Your task to perform on an android device: turn on the 24-hour format for clock Image 0: 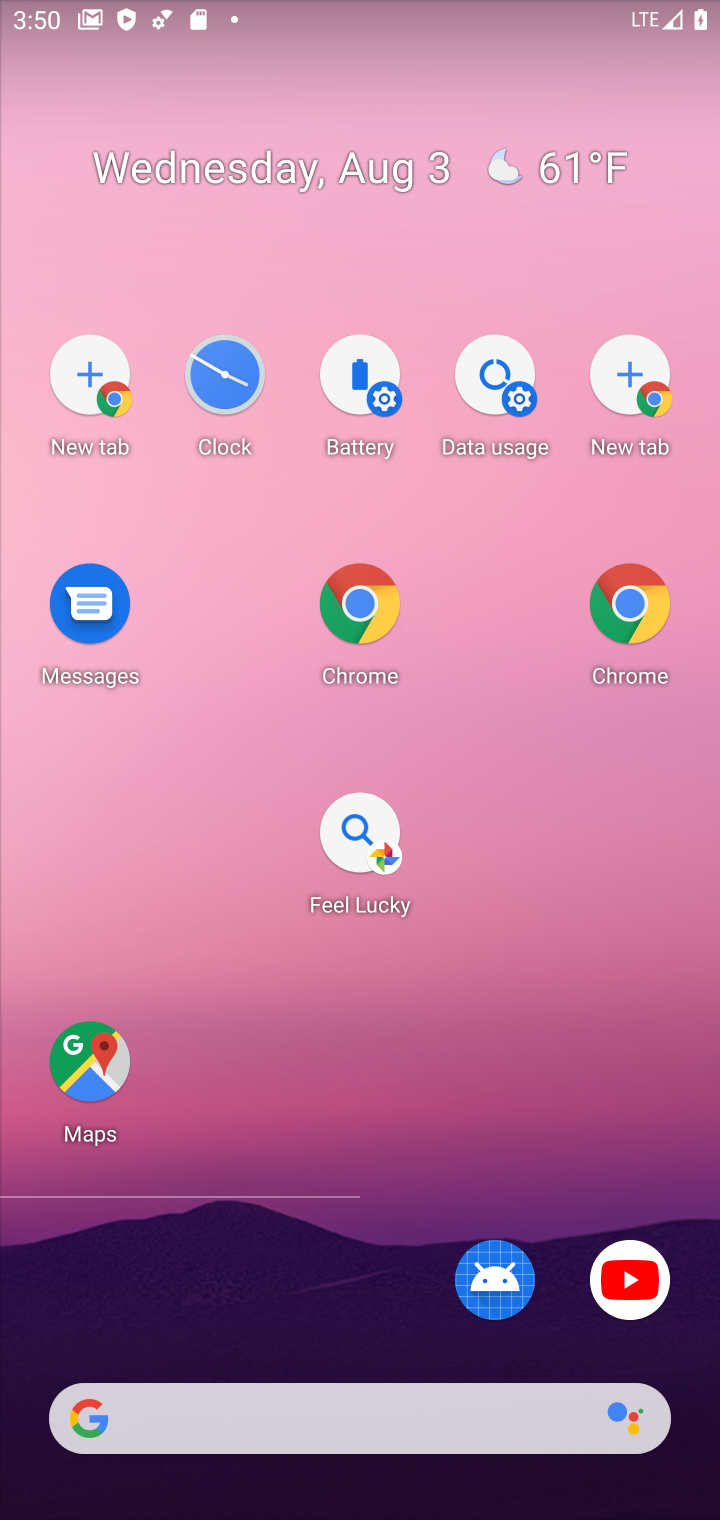
Step 0: click (213, 678)
Your task to perform on an android device: turn on the 24-hour format for clock Image 1: 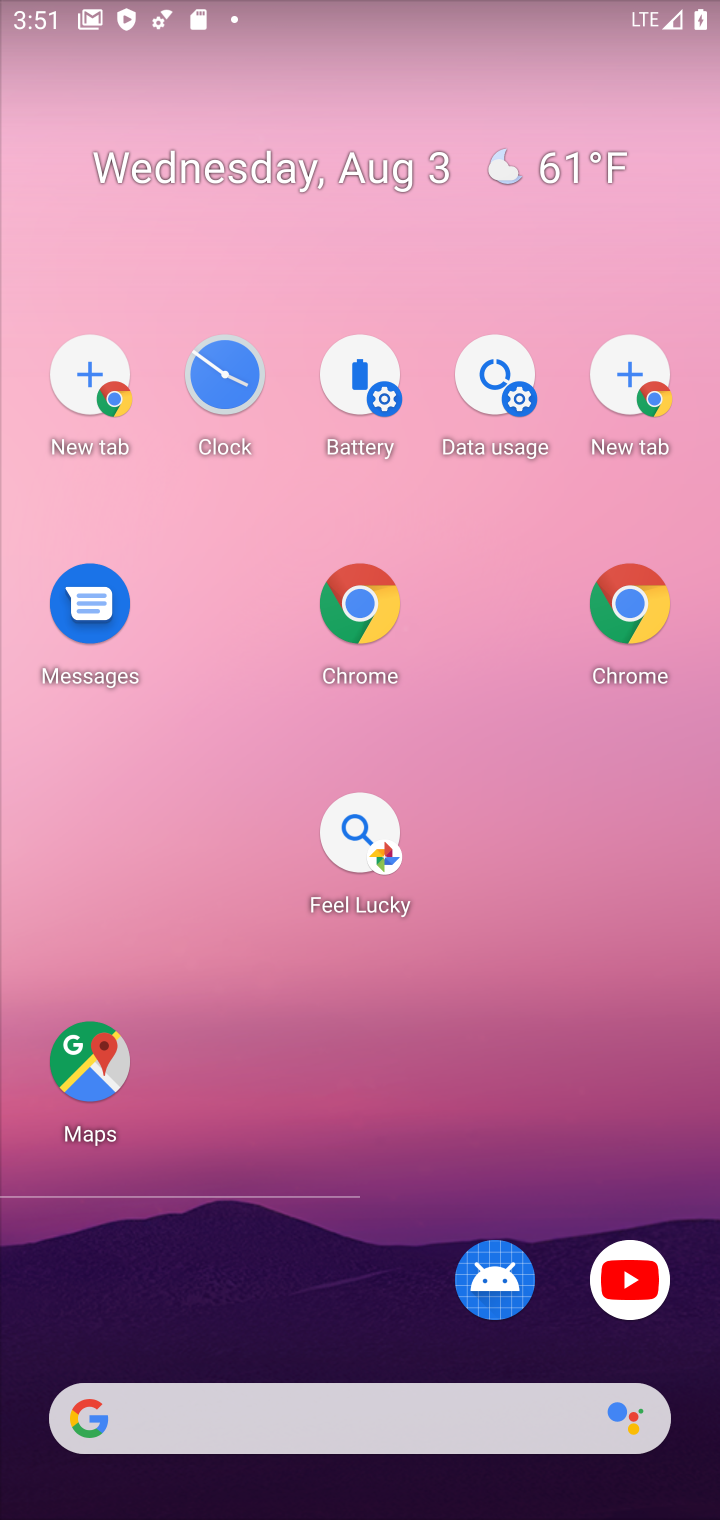
Step 1: drag from (431, 1308) to (336, 330)
Your task to perform on an android device: turn on the 24-hour format for clock Image 2: 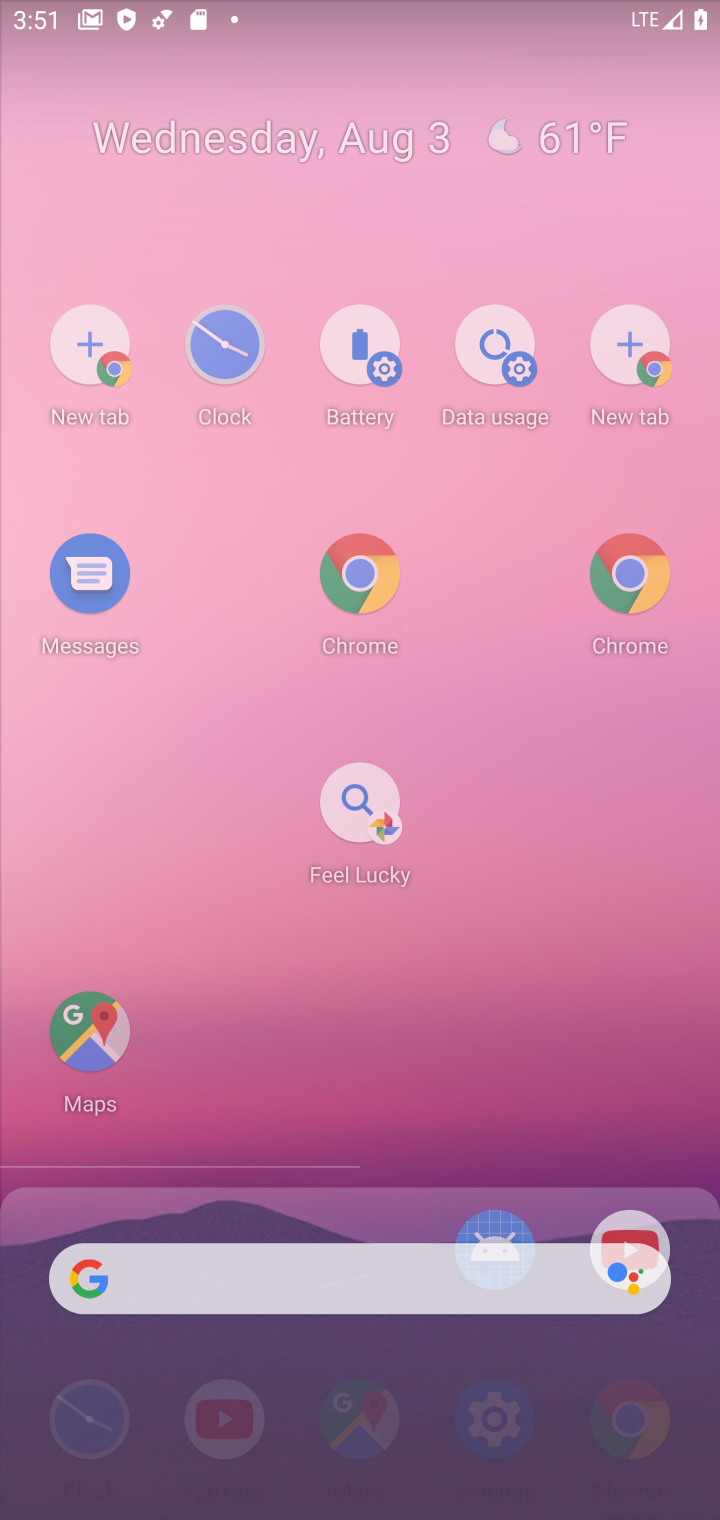
Step 2: click (266, 439)
Your task to perform on an android device: turn on the 24-hour format for clock Image 3: 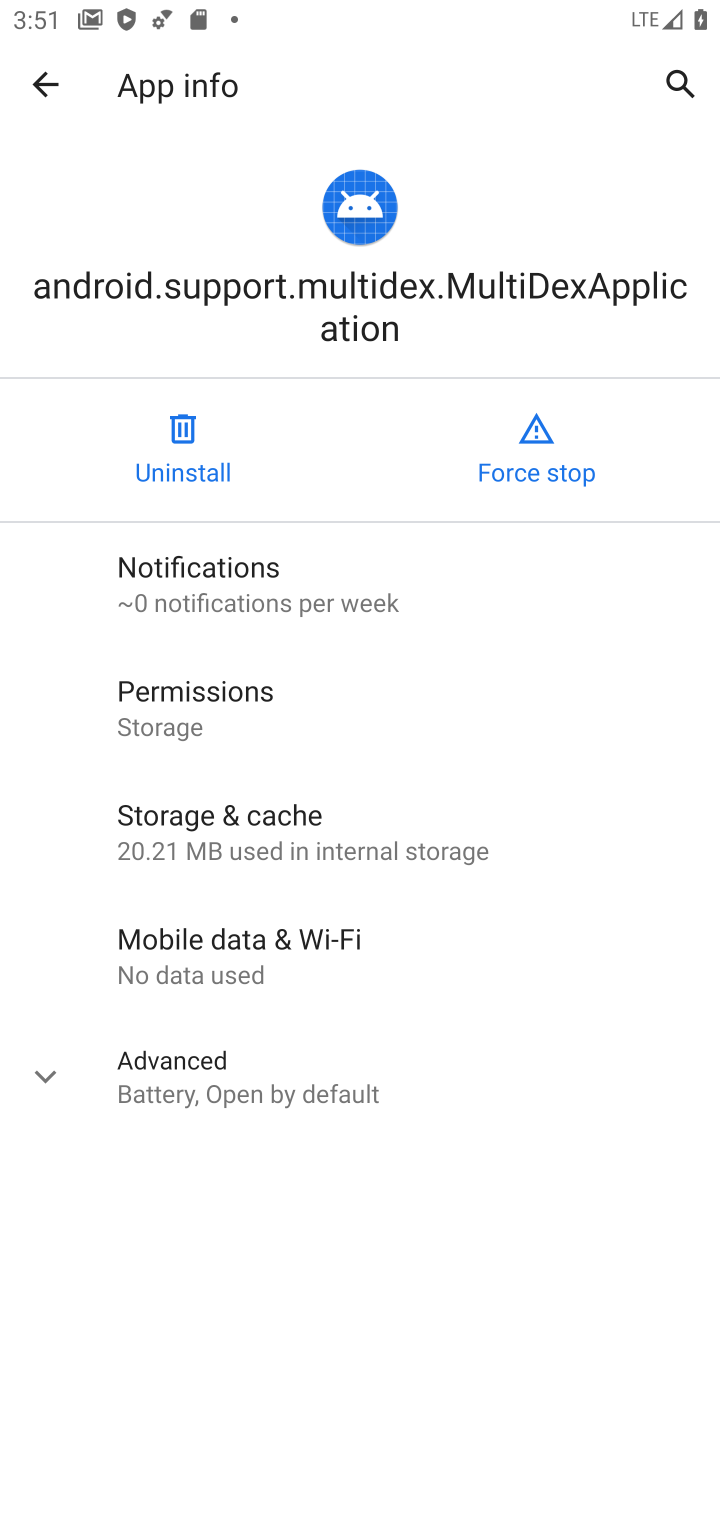
Step 3: click (29, 94)
Your task to perform on an android device: turn on the 24-hour format for clock Image 4: 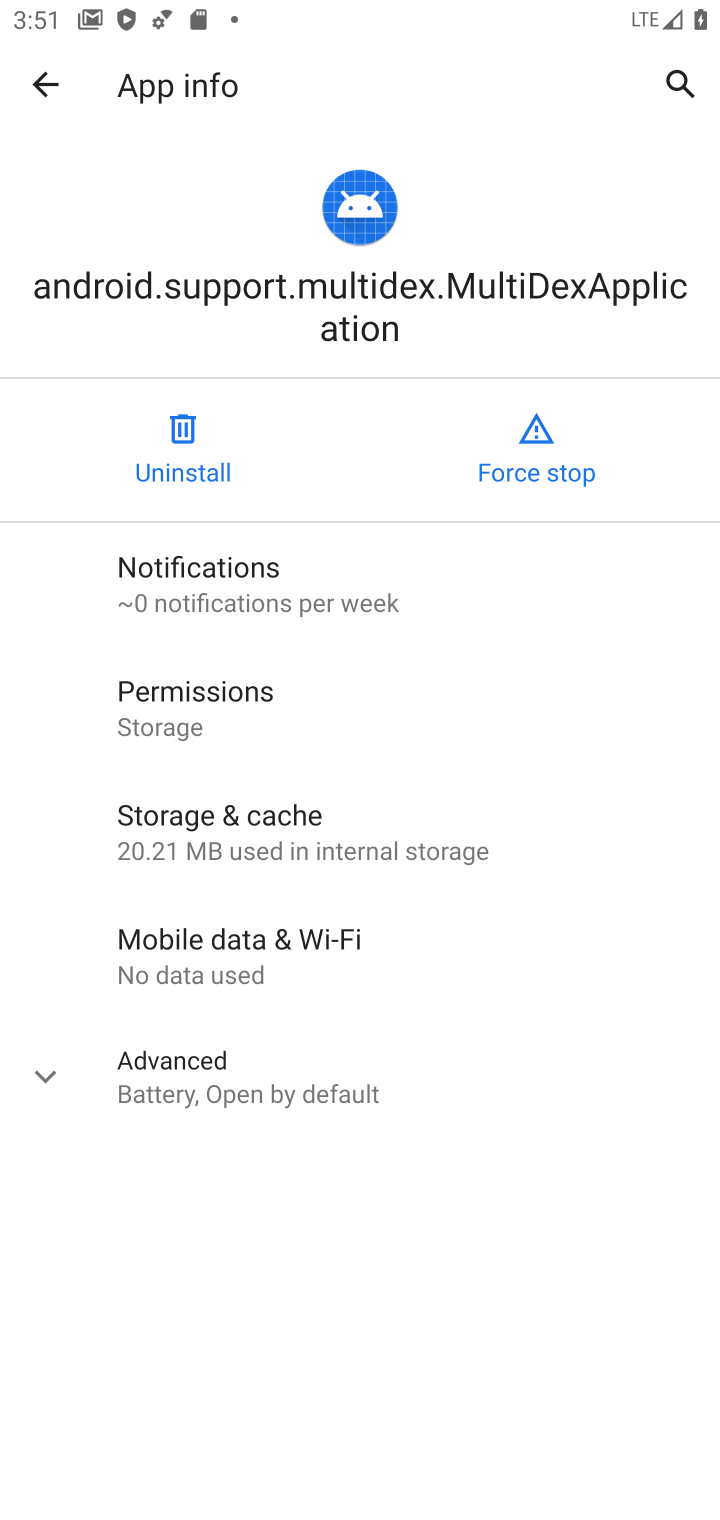
Step 4: click (32, 94)
Your task to perform on an android device: turn on the 24-hour format for clock Image 5: 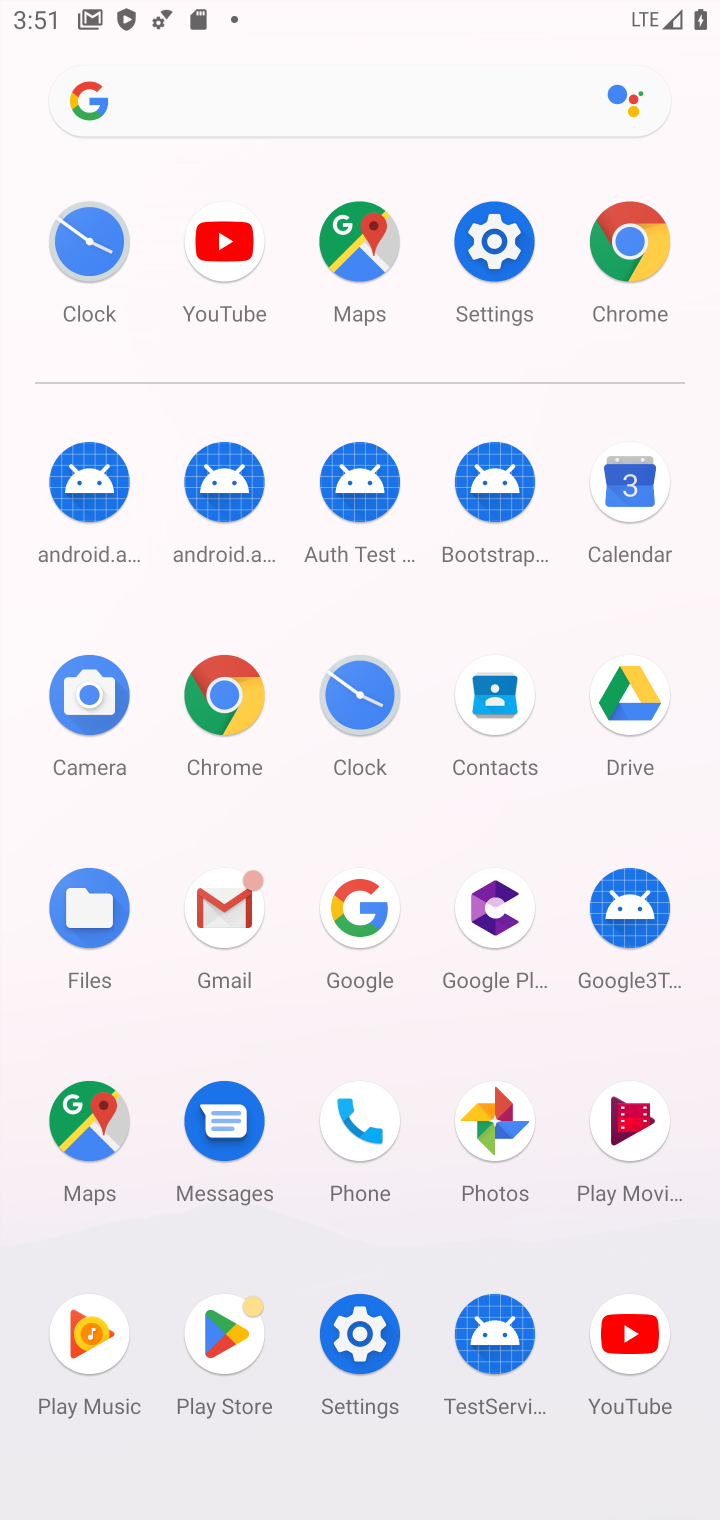
Step 5: click (358, 689)
Your task to perform on an android device: turn on the 24-hour format for clock Image 6: 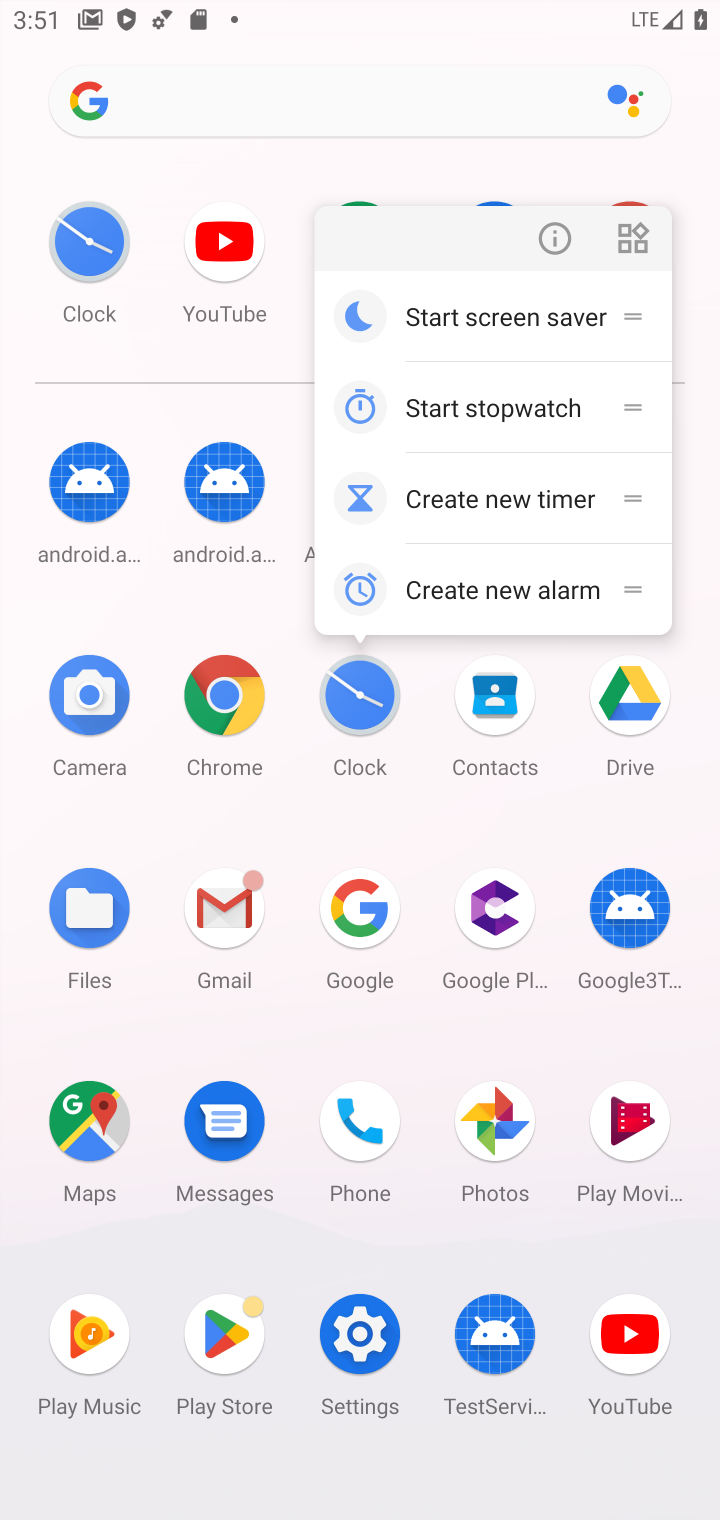
Step 6: click (88, 243)
Your task to perform on an android device: turn on the 24-hour format for clock Image 7: 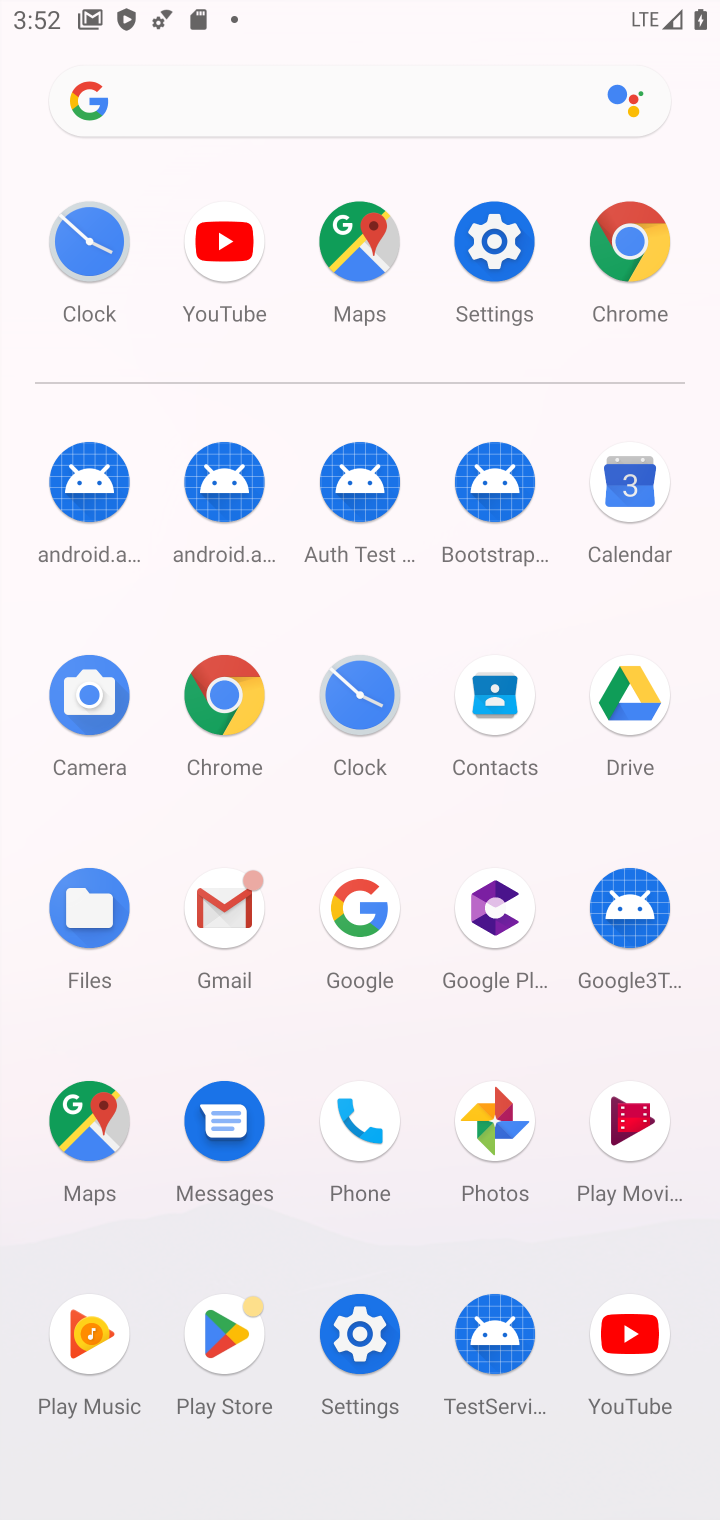
Step 7: drag from (98, 243) to (327, 703)
Your task to perform on an android device: turn on the 24-hour format for clock Image 8: 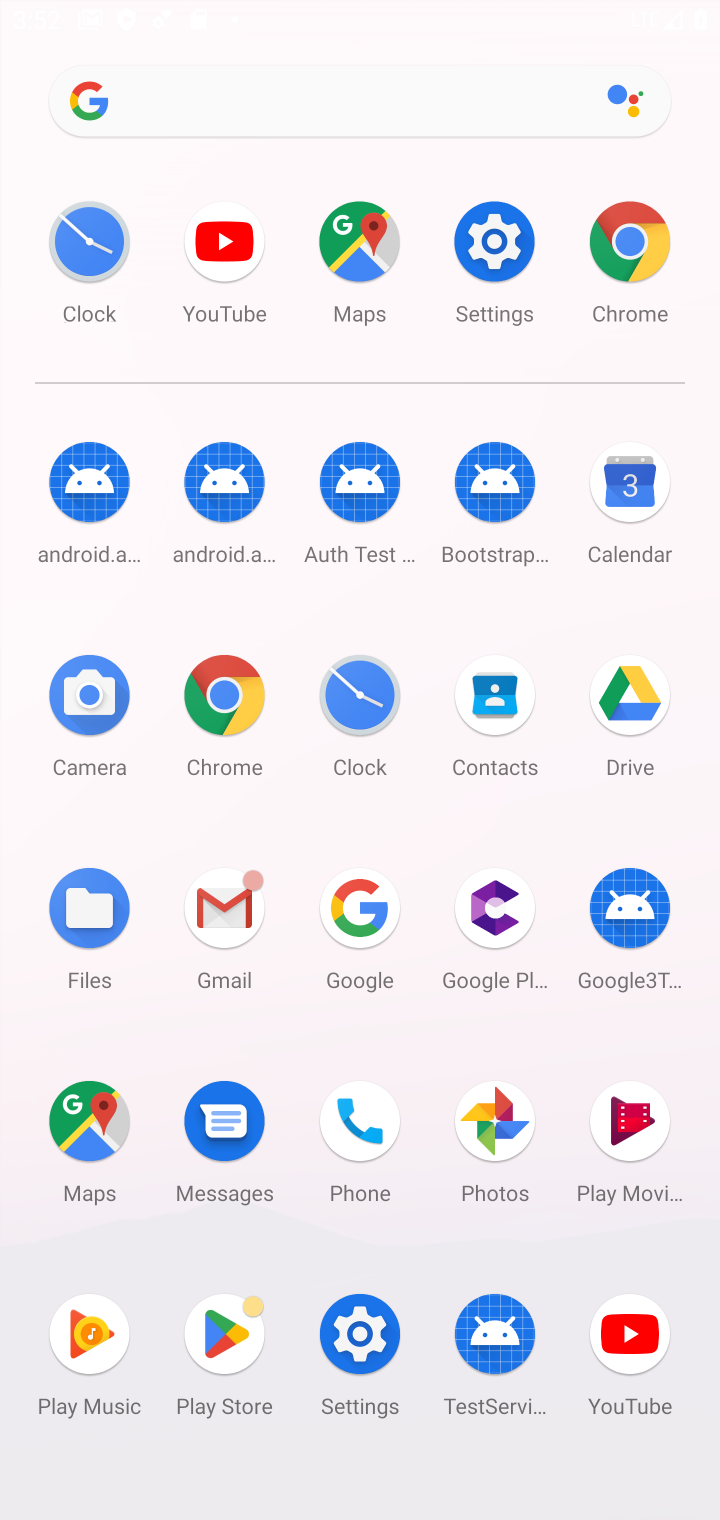
Step 8: click (331, 703)
Your task to perform on an android device: turn on the 24-hour format for clock Image 9: 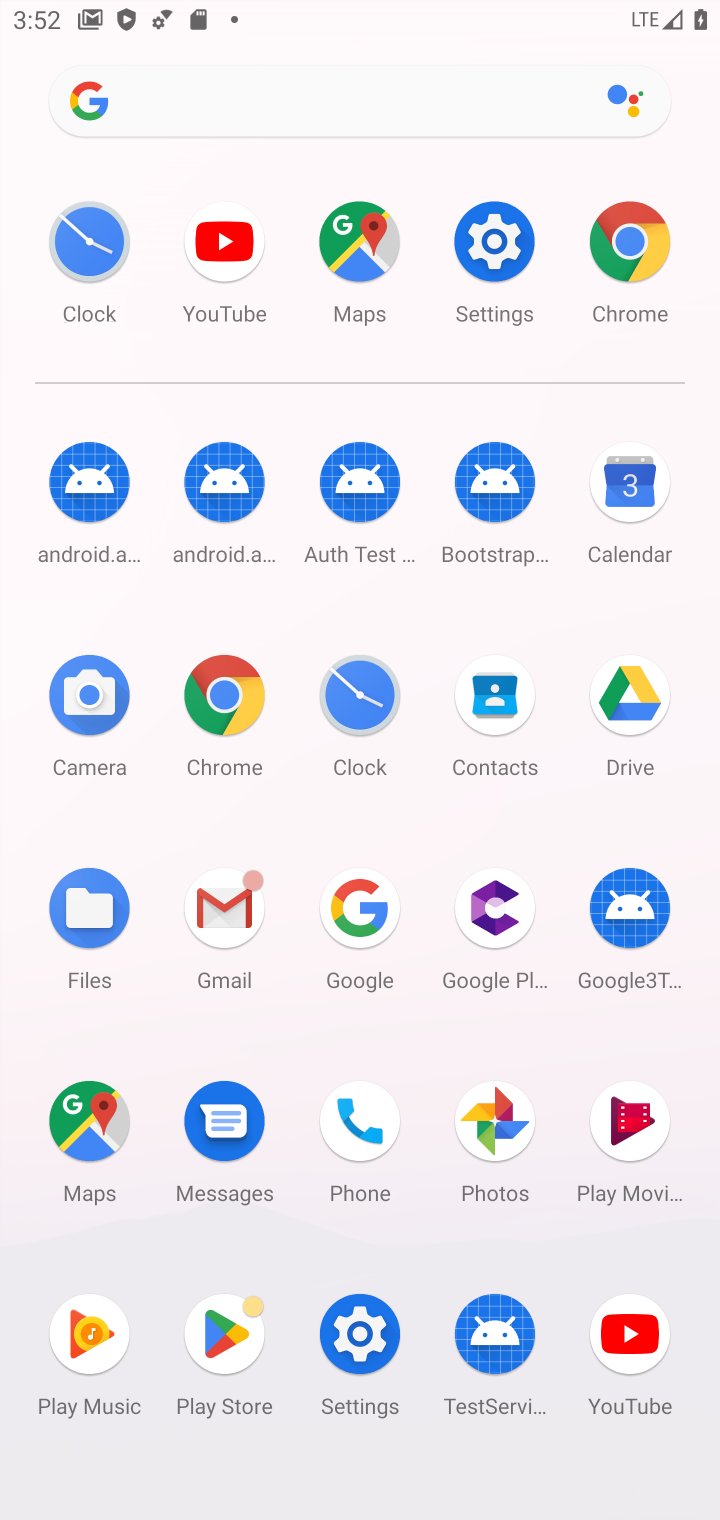
Step 9: drag from (316, 715) to (371, 652)
Your task to perform on an android device: turn on the 24-hour format for clock Image 10: 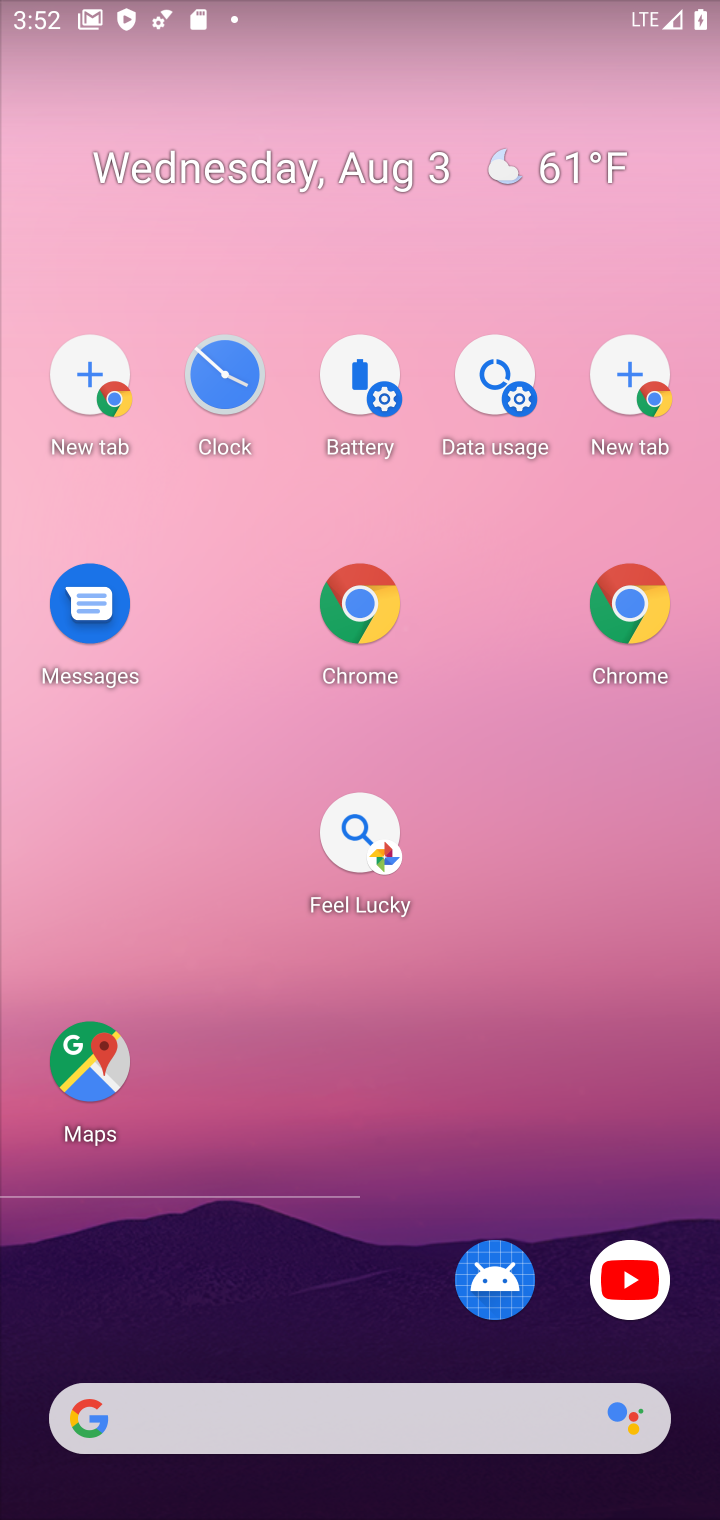
Step 10: click (359, 666)
Your task to perform on an android device: turn on the 24-hour format for clock Image 11: 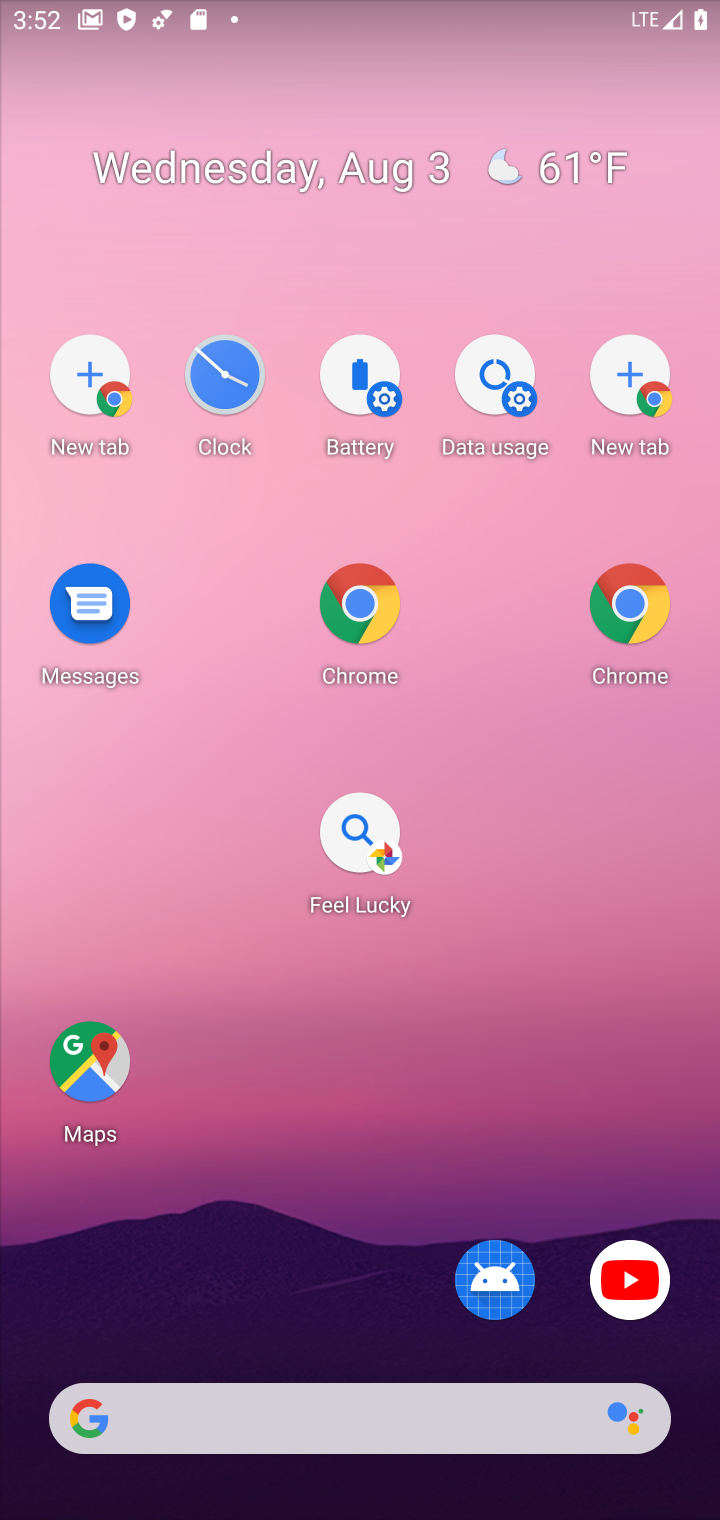
Step 11: drag from (355, 512) to (479, 244)
Your task to perform on an android device: turn on the 24-hour format for clock Image 12: 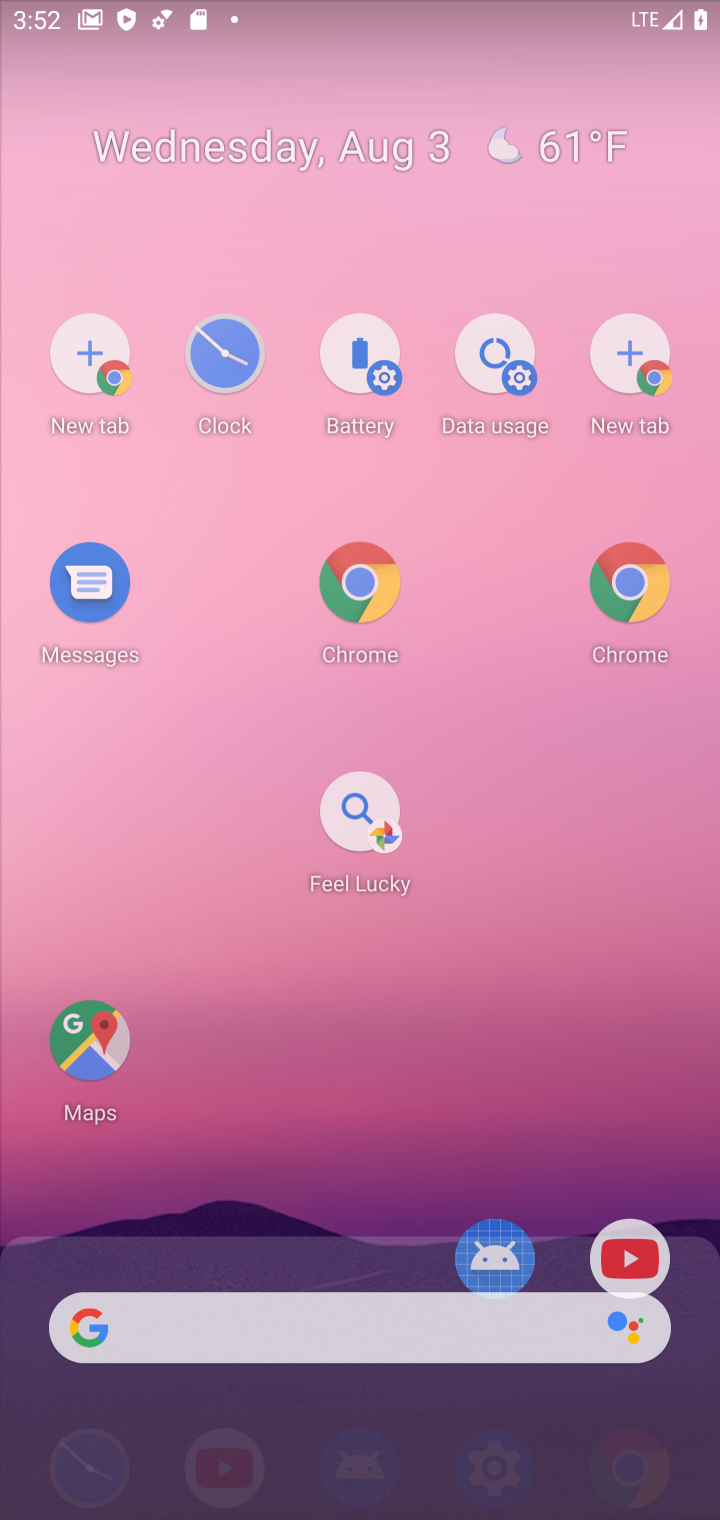
Step 12: click (320, 278)
Your task to perform on an android device: turn on the 24-hour format for clock Image 13: 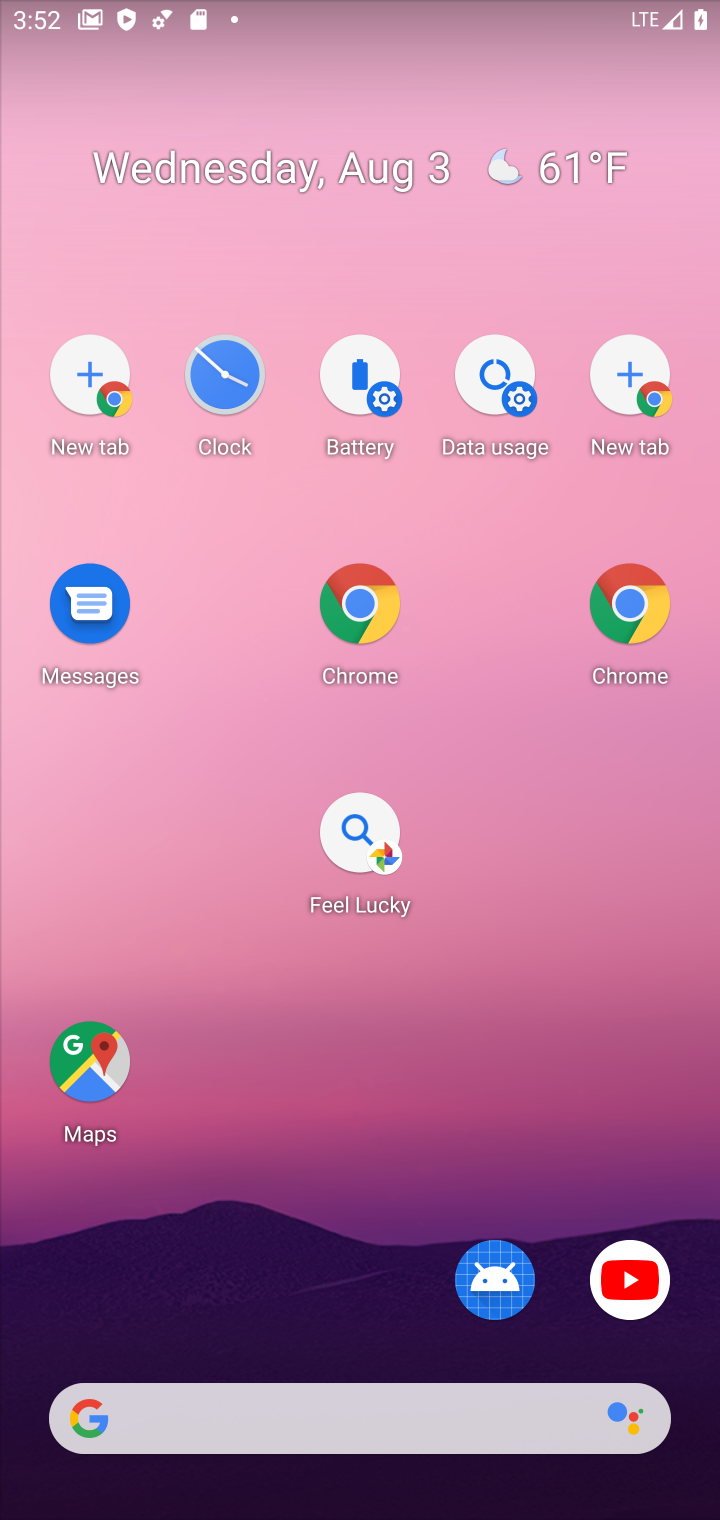
Step 13: click (254, 561)
Your task to perform on an android device: turn on the 24-hour format for clock Image 14: 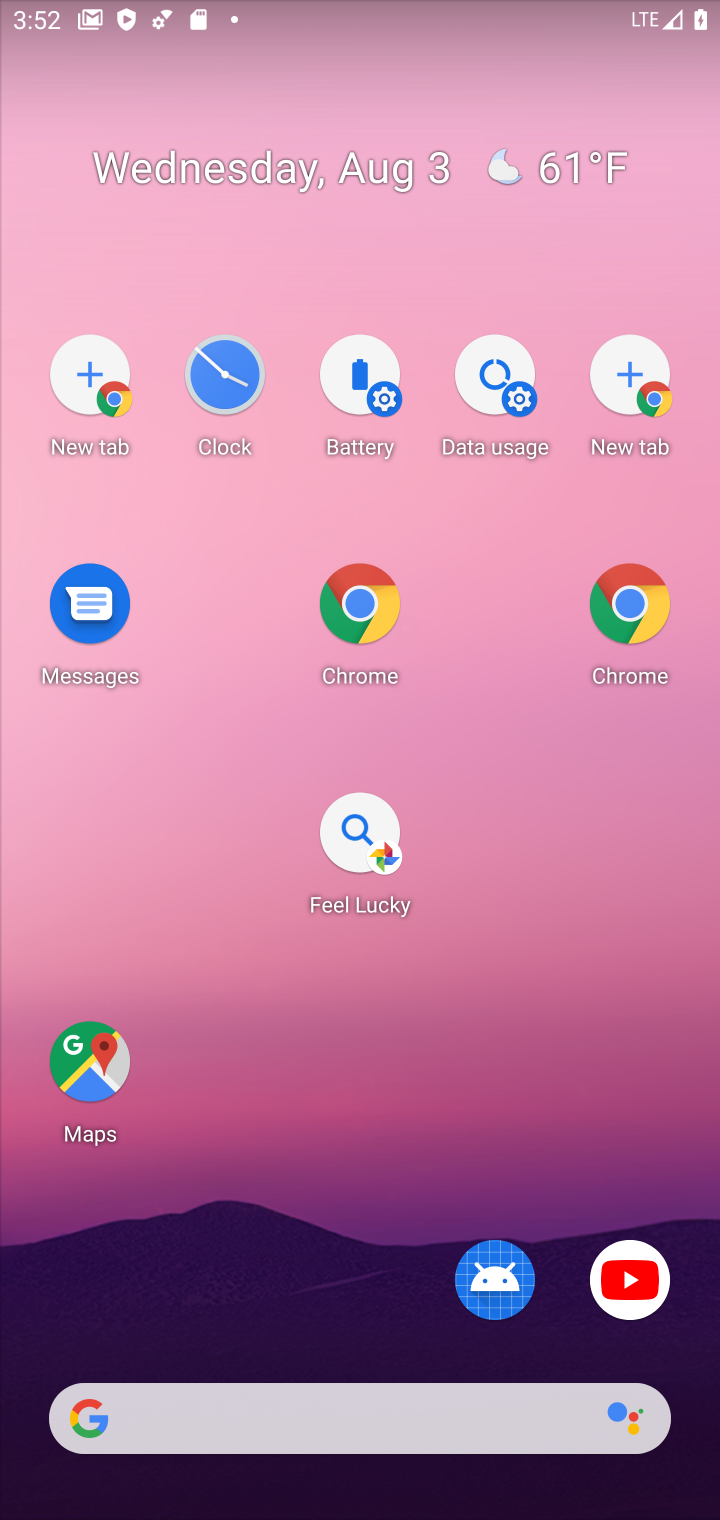
Step 14: drag from (329, 478) to (416, 534)
Your task to perform on an android device: turn on the 24-hour format for clock Image 15: 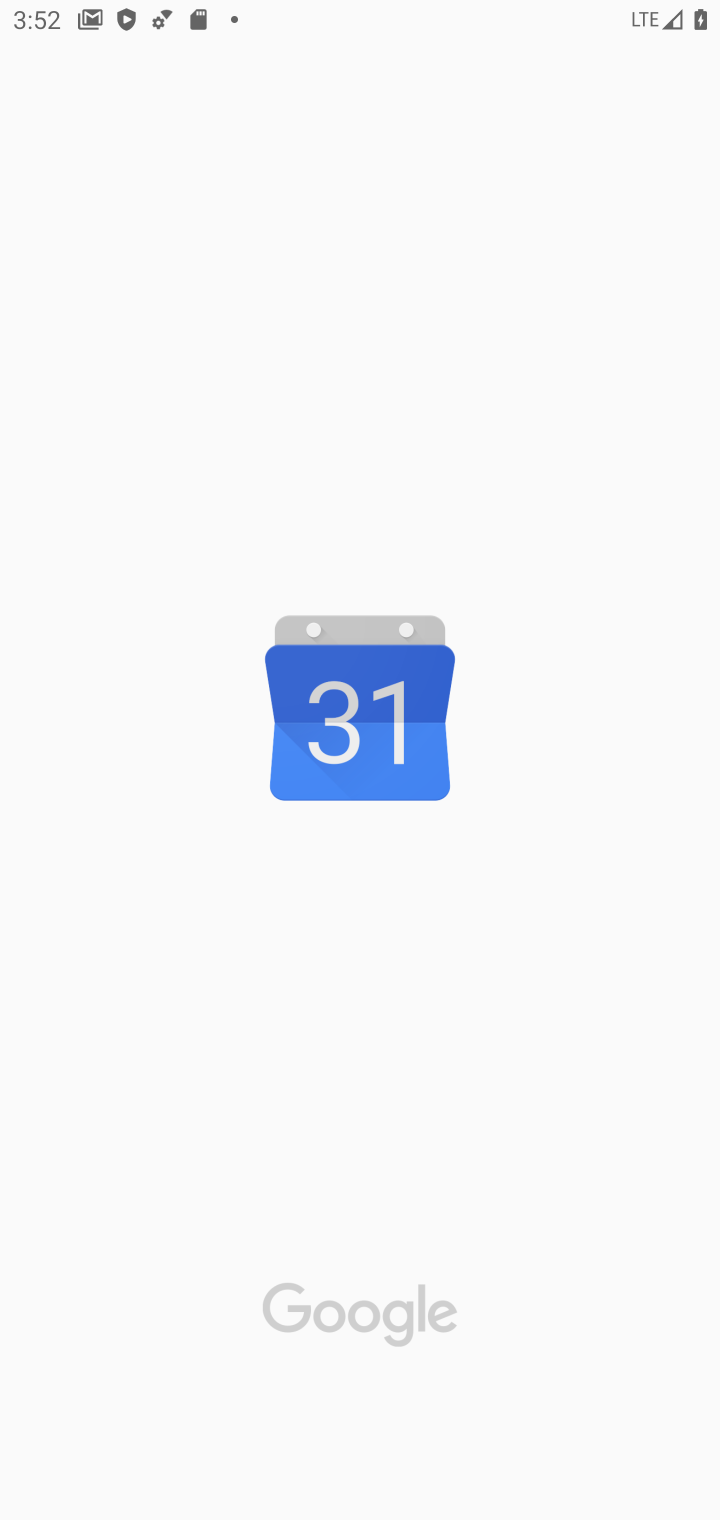
Step 15: drag from (357, 1171) to (374, 64)
Your task to perform on an android device: turn on the 24-hour format for clock Image 16: 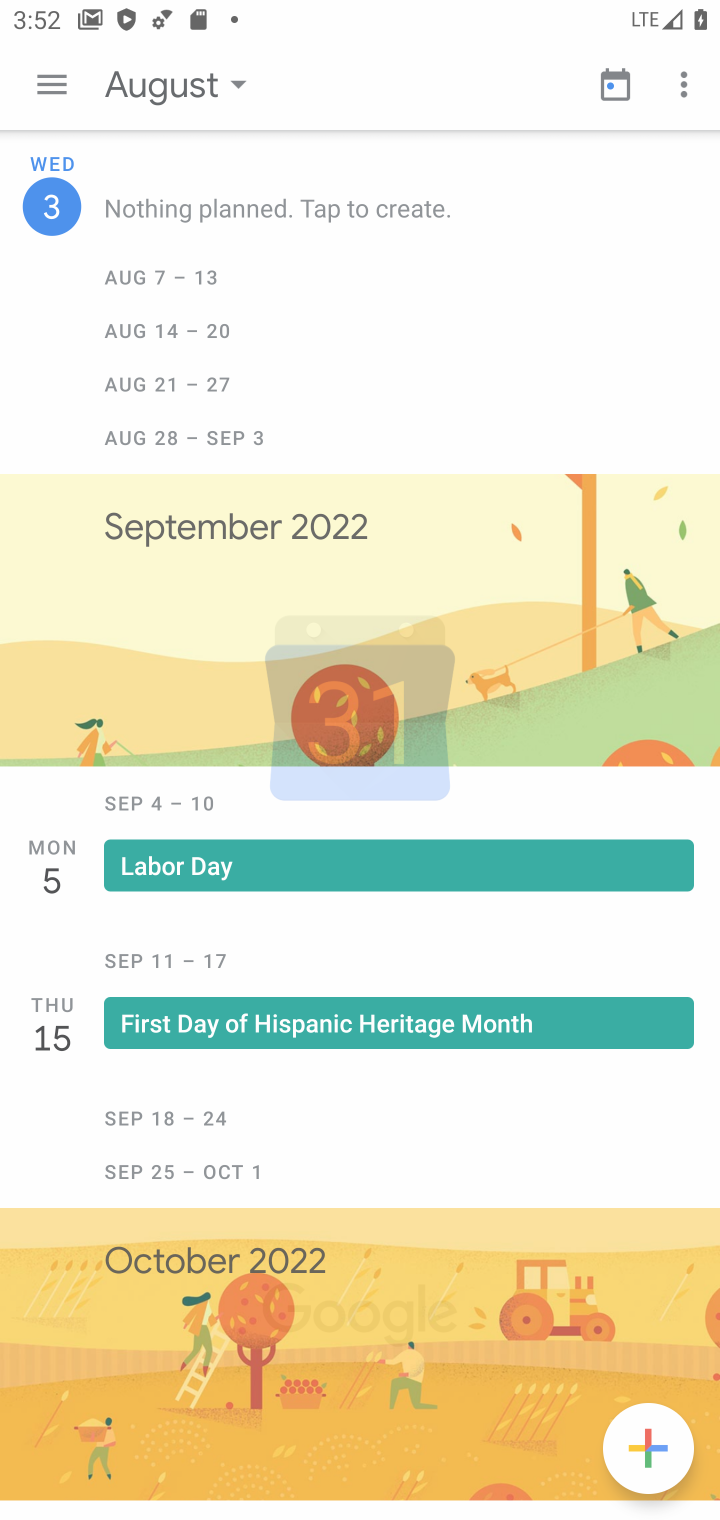
Step 16: click (458, 340)
Your task to perform on an android device: turn on the 24-hour format for clock Image 17: 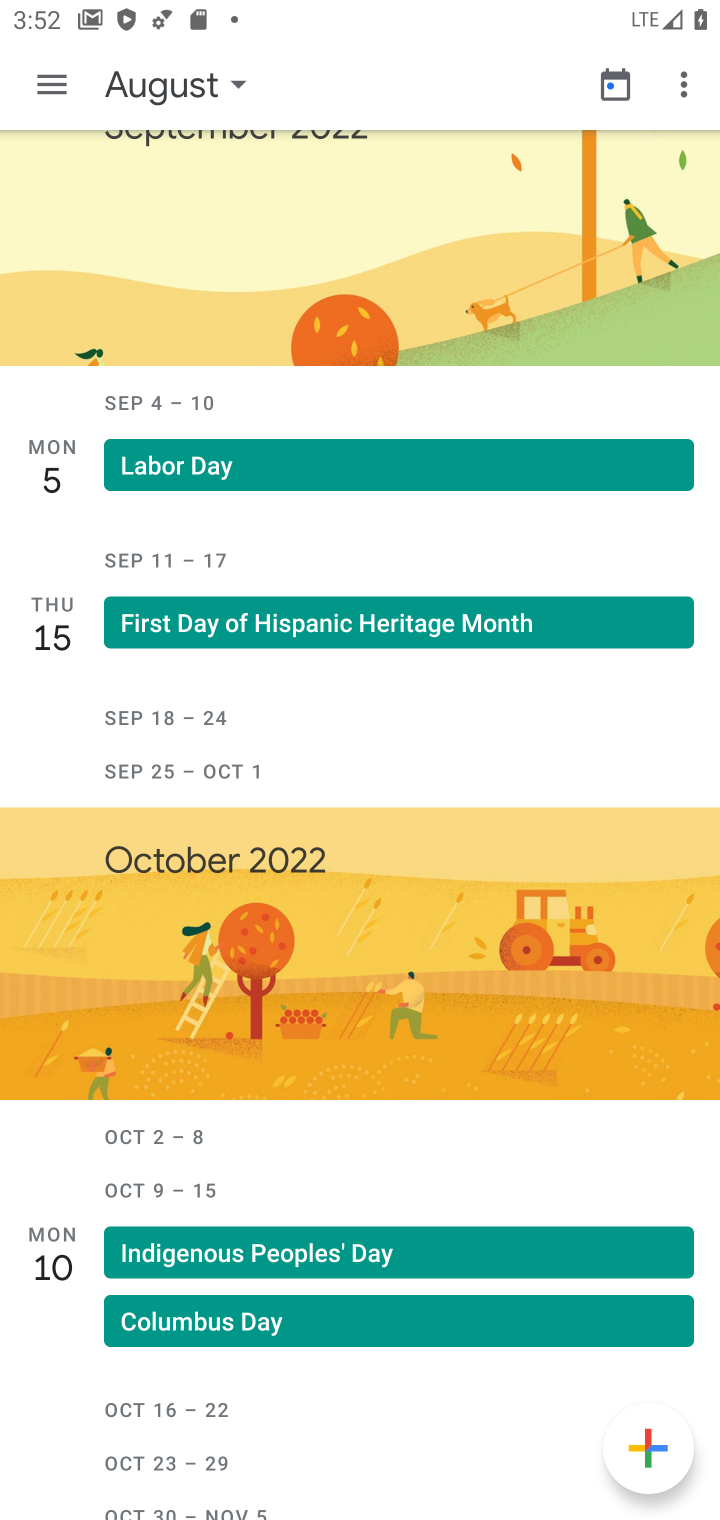
Step 17: press back button
Your task to perform on an android device: turn on the 24-hour format for clock Image 18: 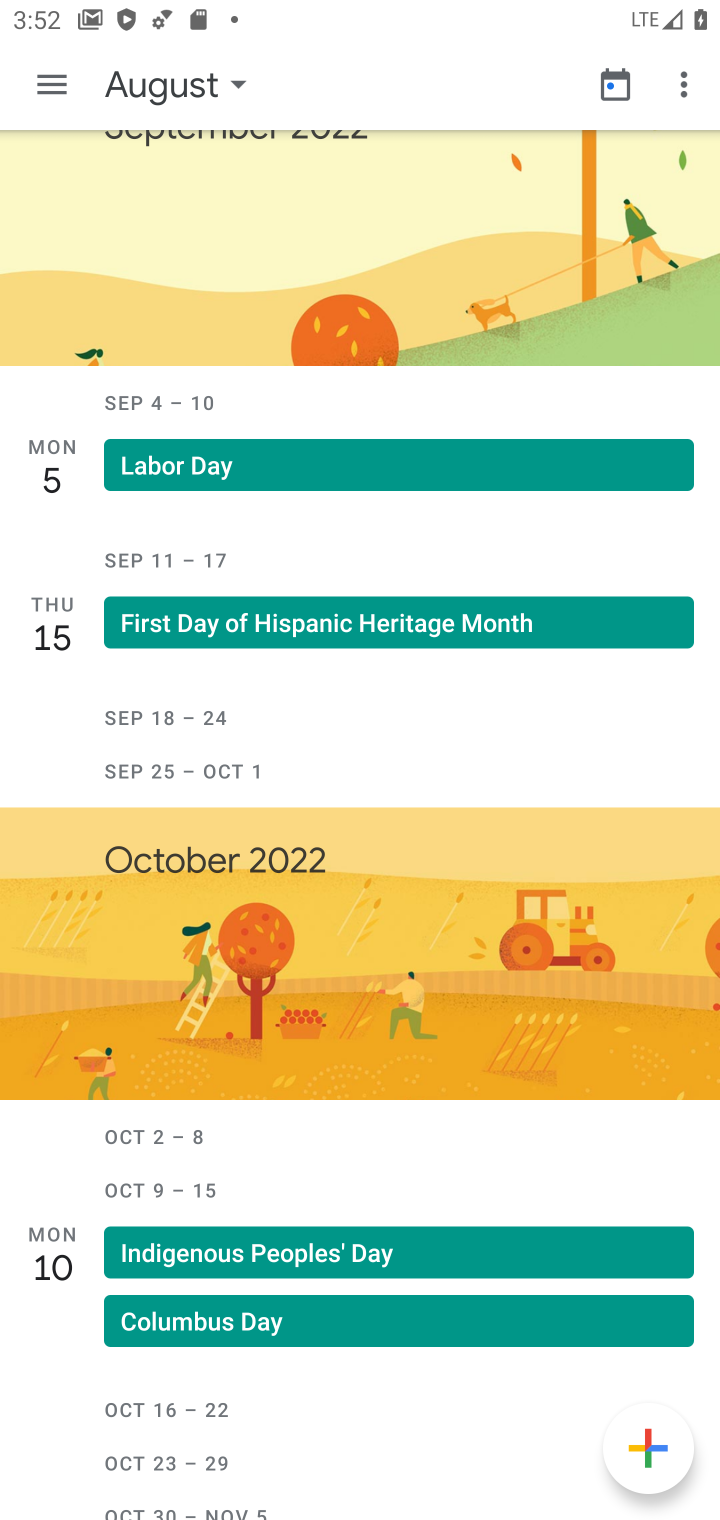
Step 18: press back button
Your task to perform on an android device: turn on the 24-hour format for clock Image 19: 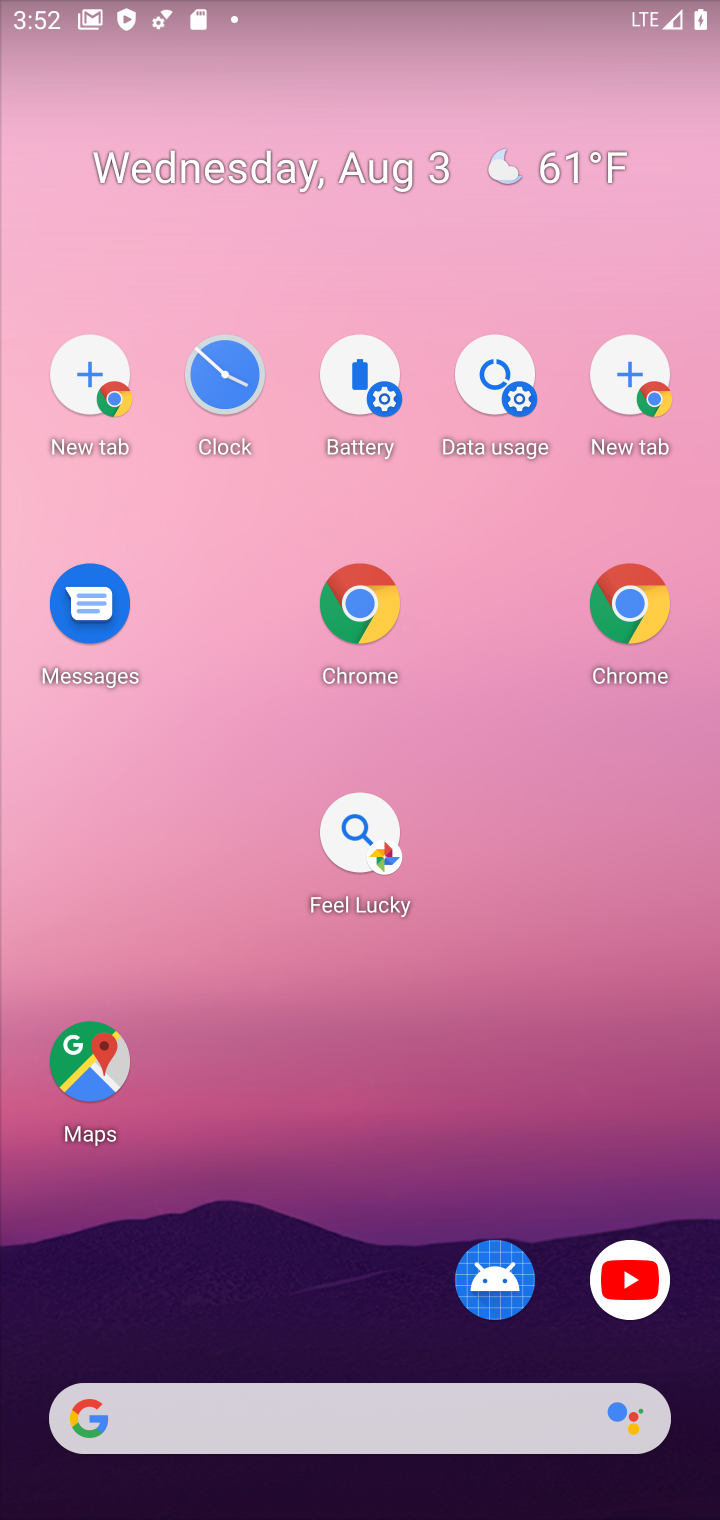
Step 19: drag from (439, 1283) to (419, 274)
Your task to perform on an android device: turn on the 24-hour format for clock Image 20: 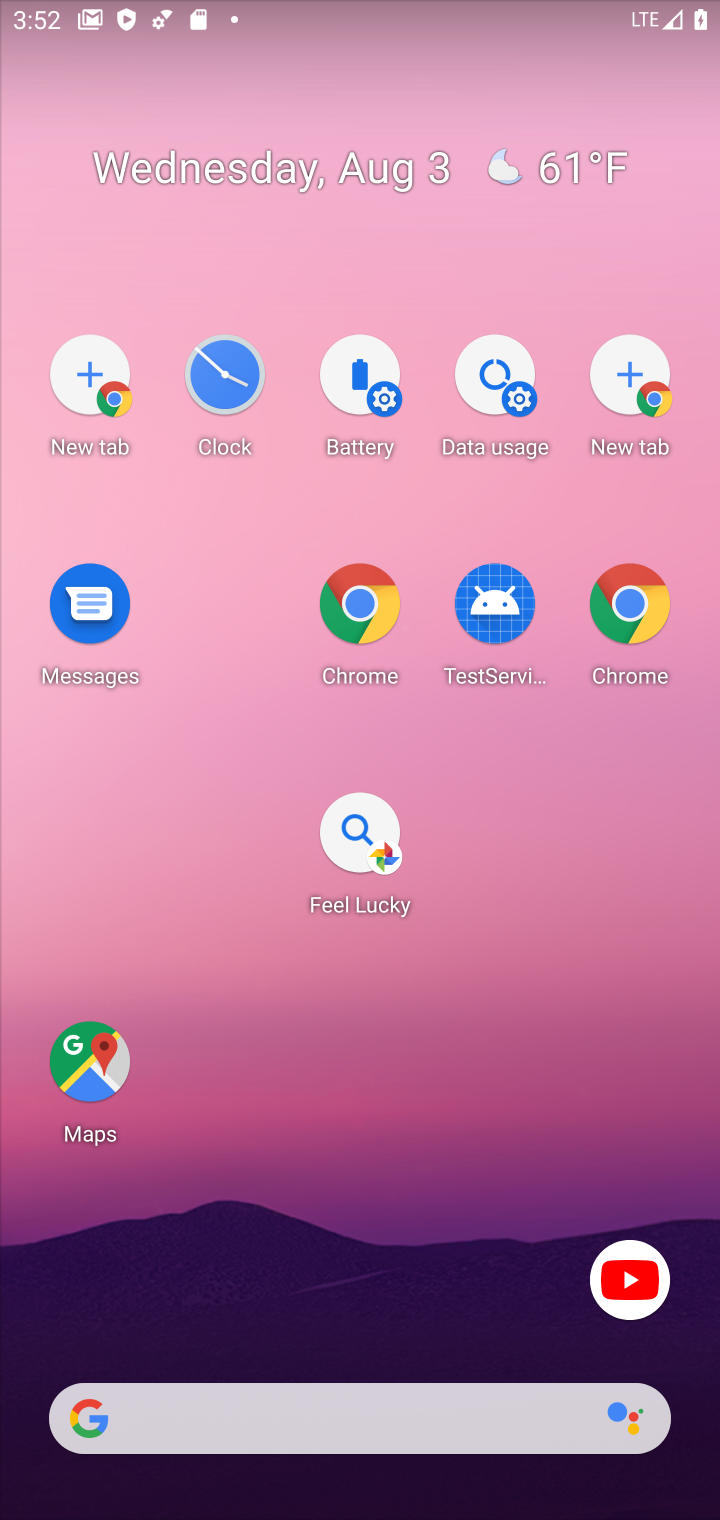
Step 20: drag from (346, 701) to (425, 427)
Your task to perform on an android device: turn on the 24-hour format for clock Image 21: 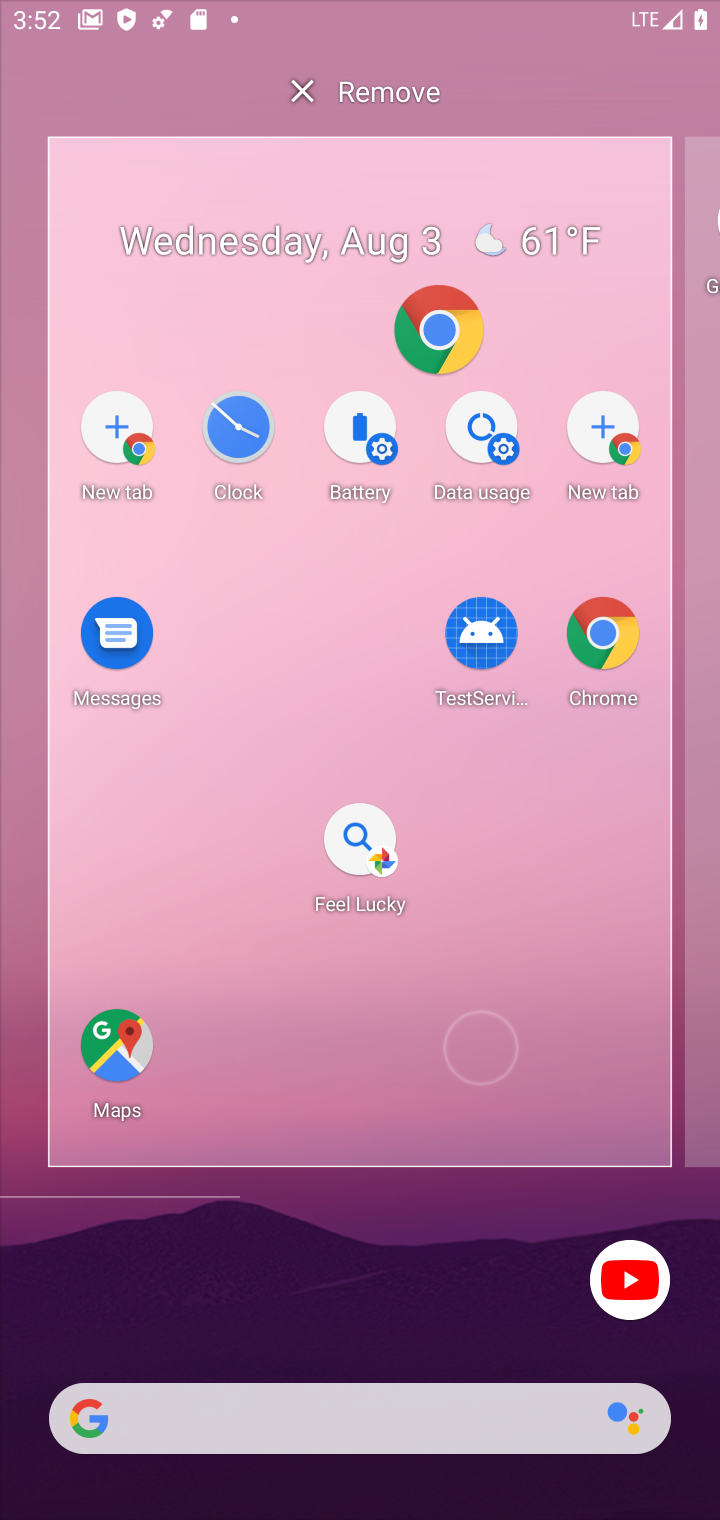
Step 21: drag from (73, 574) to (490, 458)
Your task to perform on an android device: turn on the 24-hour format for clock Image 22: 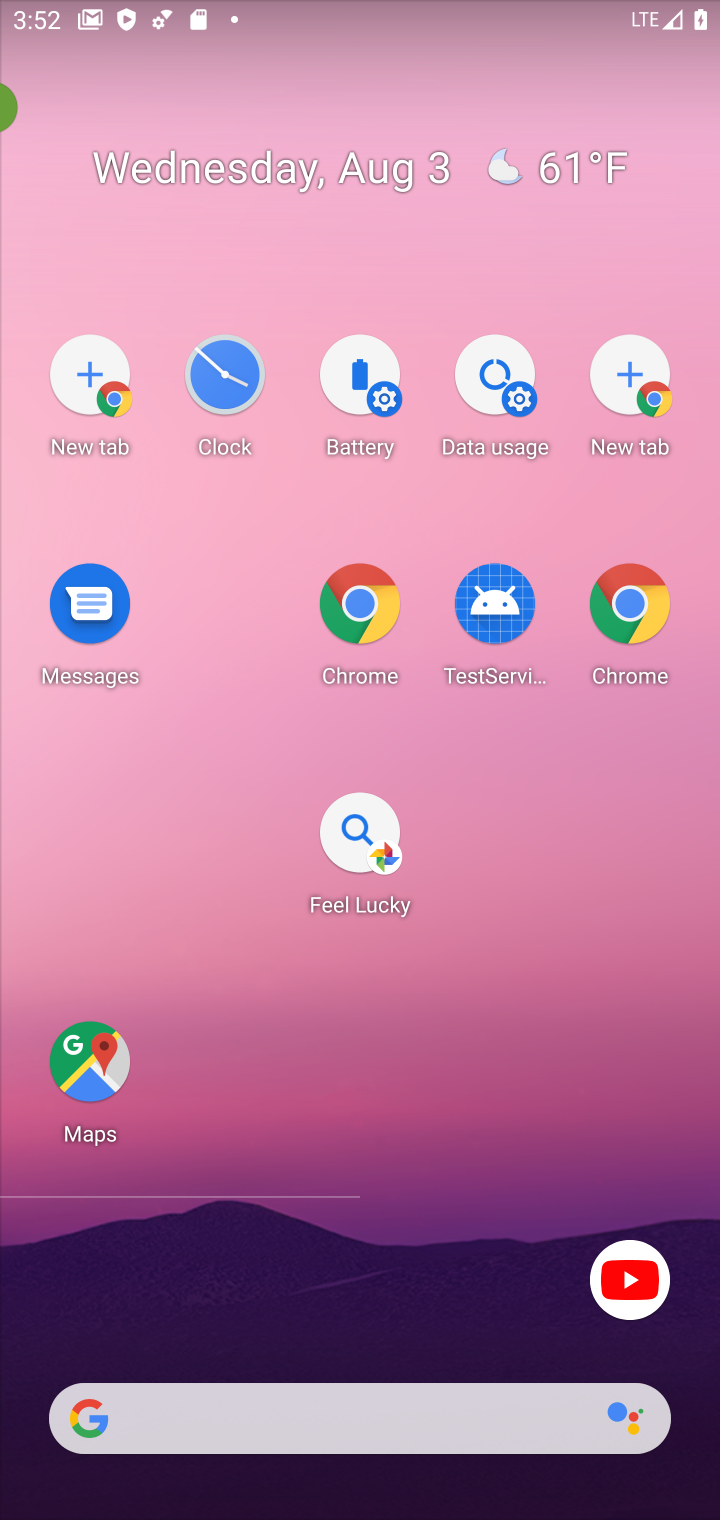
Step 22: click (261, 426)
Your task to perform on an android device: turn on the 24-hour format for clock Image 23: 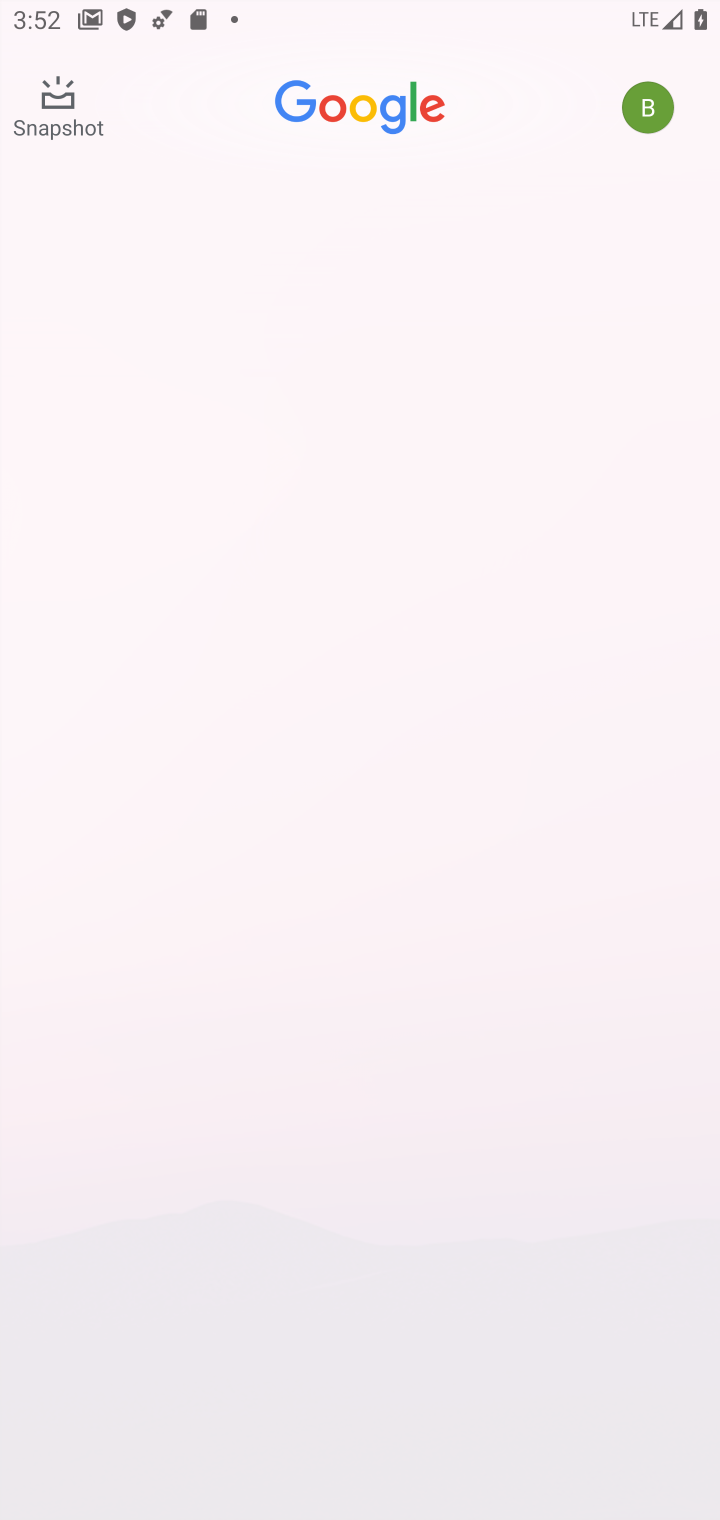
Step 23: click (246, 437)
Your task to perform on an android device: turn on the 24-hour format for clock Image 24: 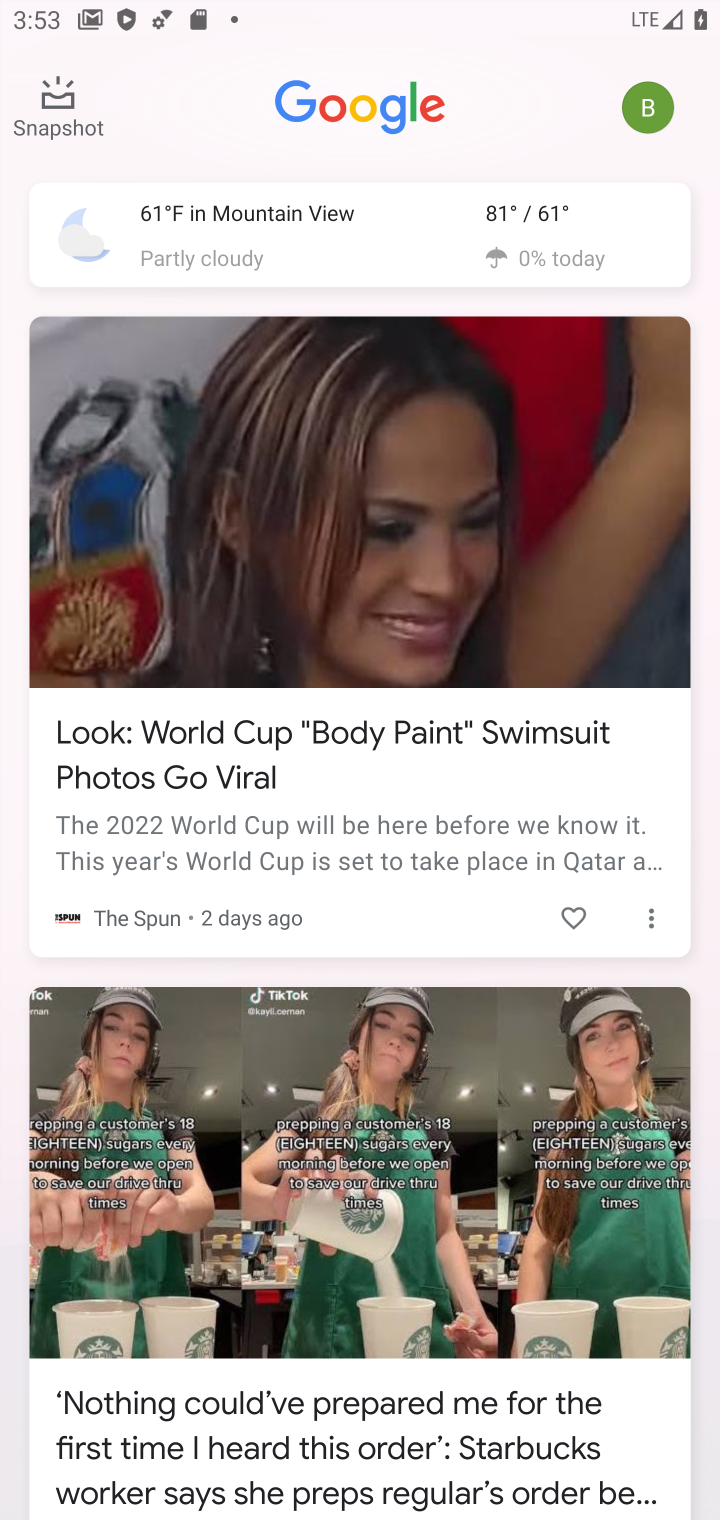
Step 24: press back button
Your task to perform on an android device: turn on the 24-hour format for clock Image 25: 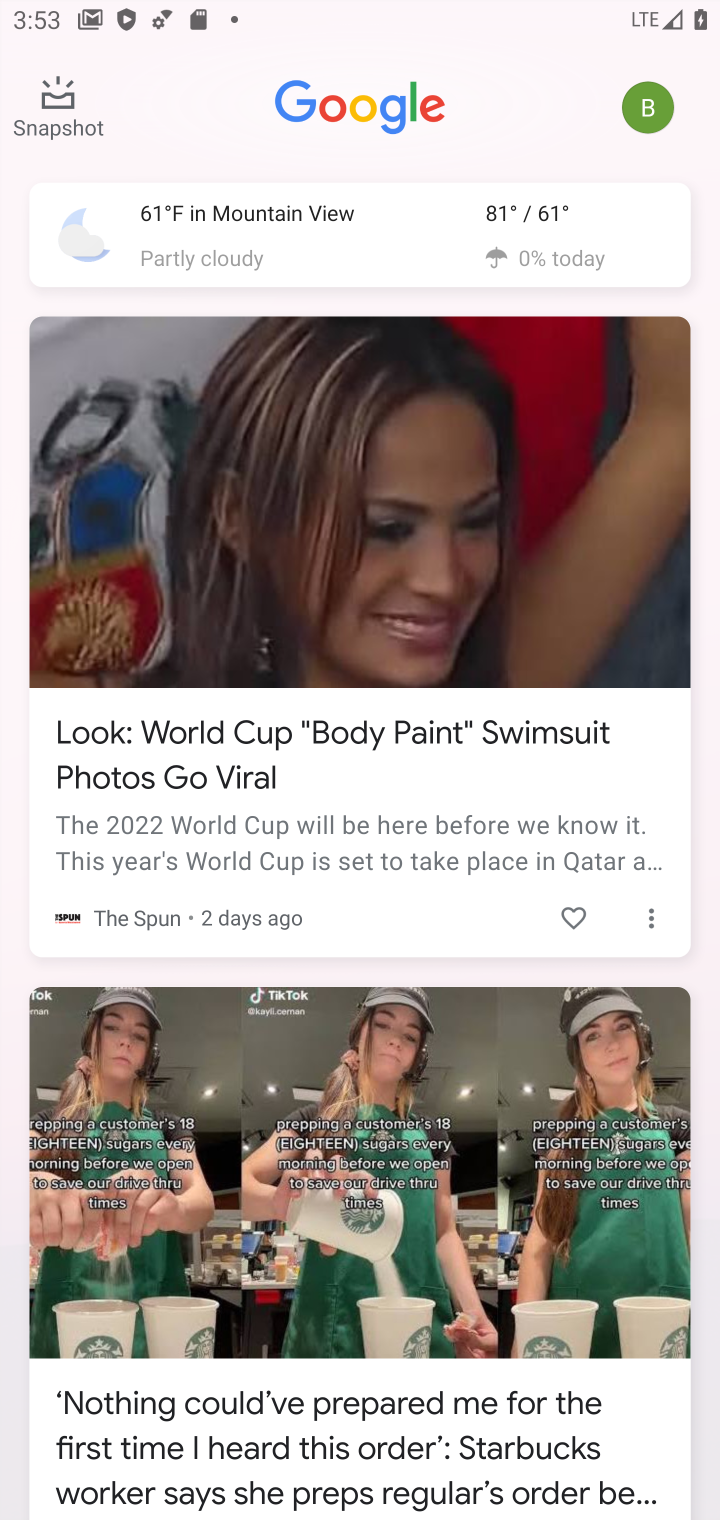
Step 25: press back button
Your task to perform on an android device: turn on the 24-hour format for clock Image 26: 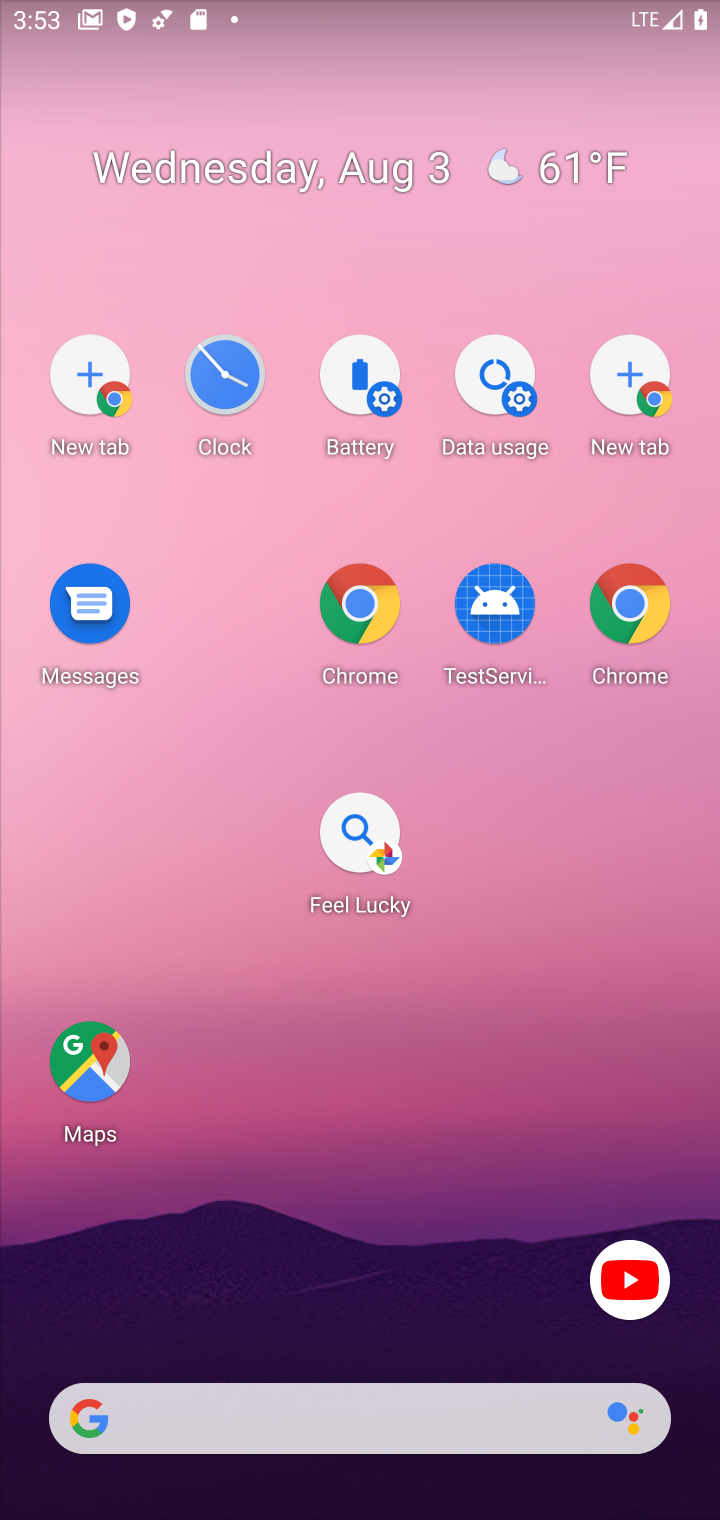
Step 26: drag from (257, 134) to (329, 175)
Your task to perform on an android device: turn on the 24-hour format for clock Image 27: 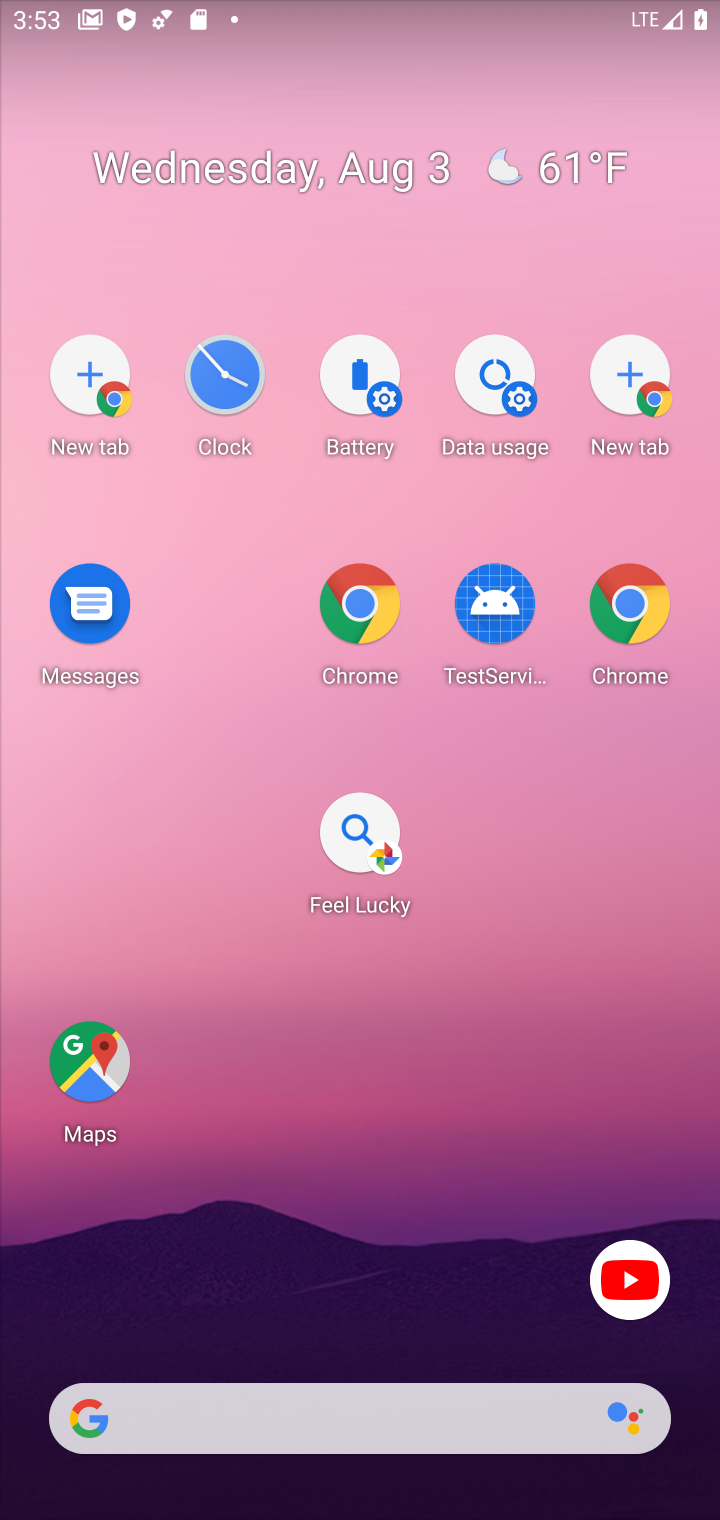
Step 27: drag from (344, 917) to (536, 525)
Your task to perform on an android device: turn on the 24-hour format for clock Image 28: 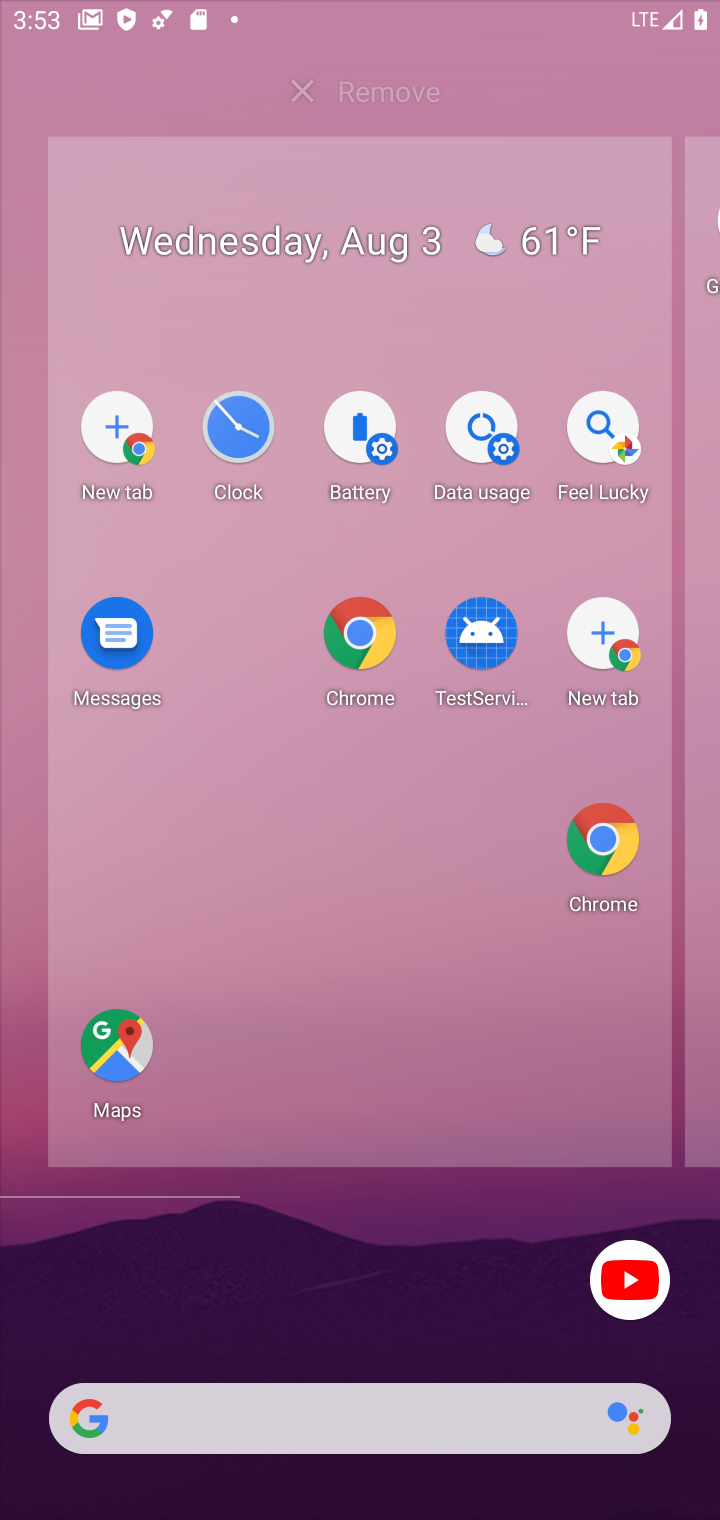
Step 28: drag from (454, 971) to (328, 710)
Your task to perform on an android device: turn on the 24-hour format for clock Image 29: 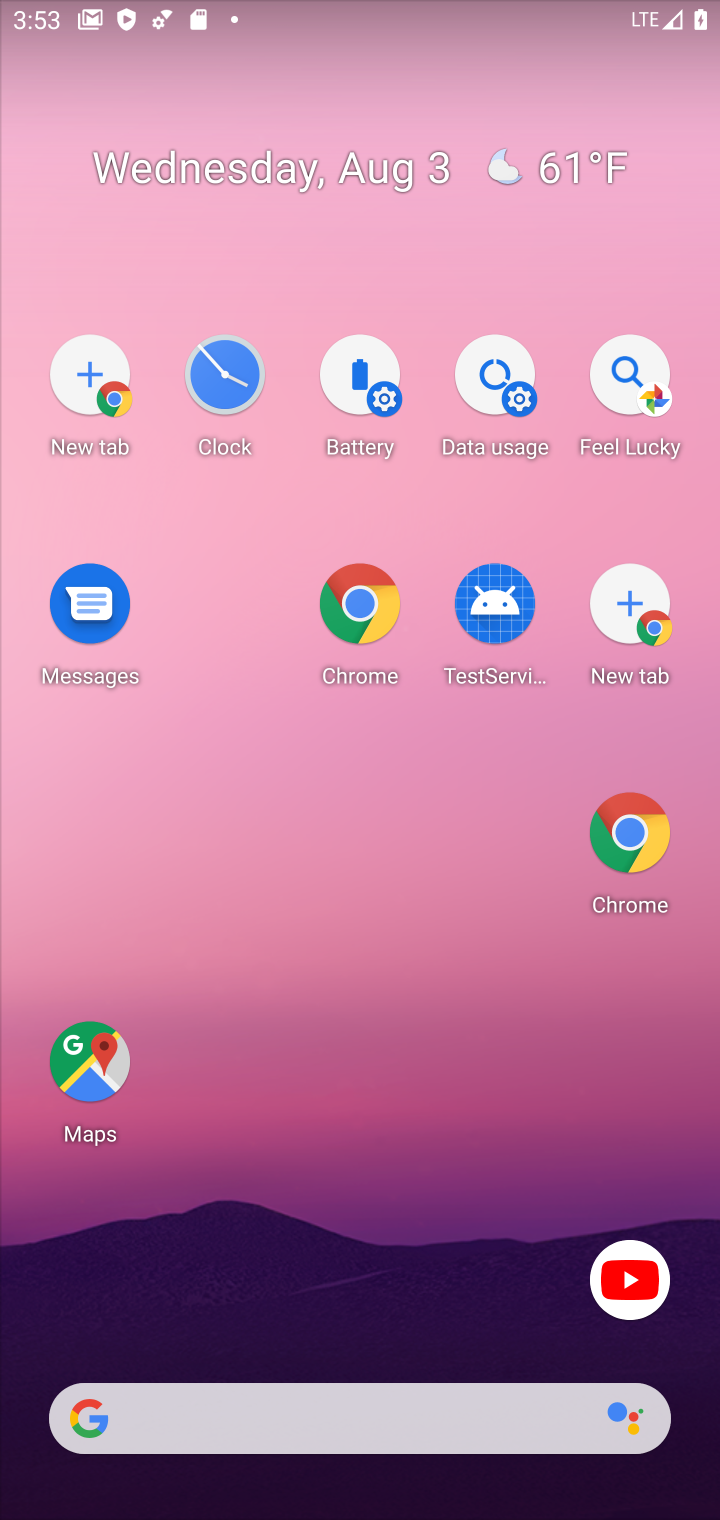
Step 29: click (229, 373)
Your task to perform on an android device: turn on the 24-hour format for clock Image 30: 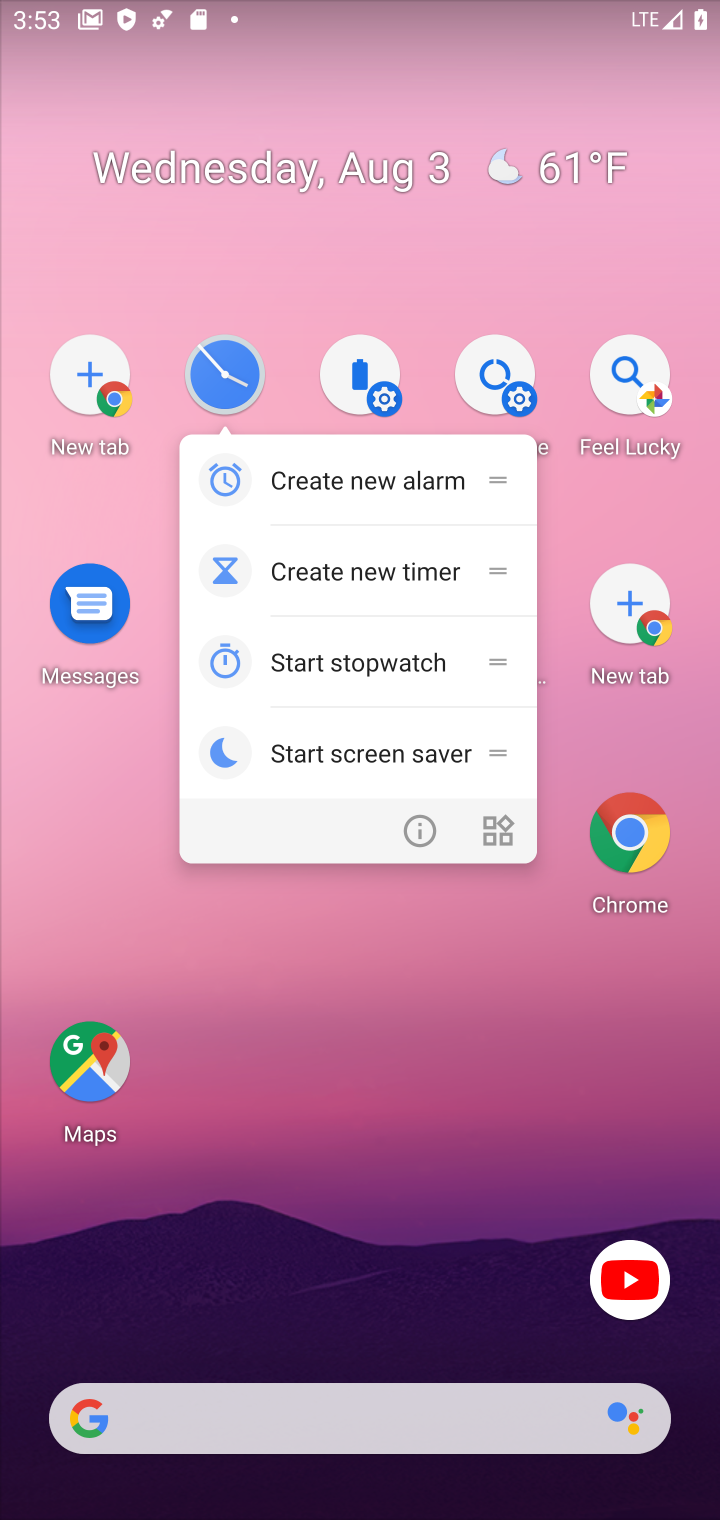
Step 30: drag from (187, 389) to (353, 290)
Your task to perform on an android device: turn on the 24-hour format for clock Image 31: 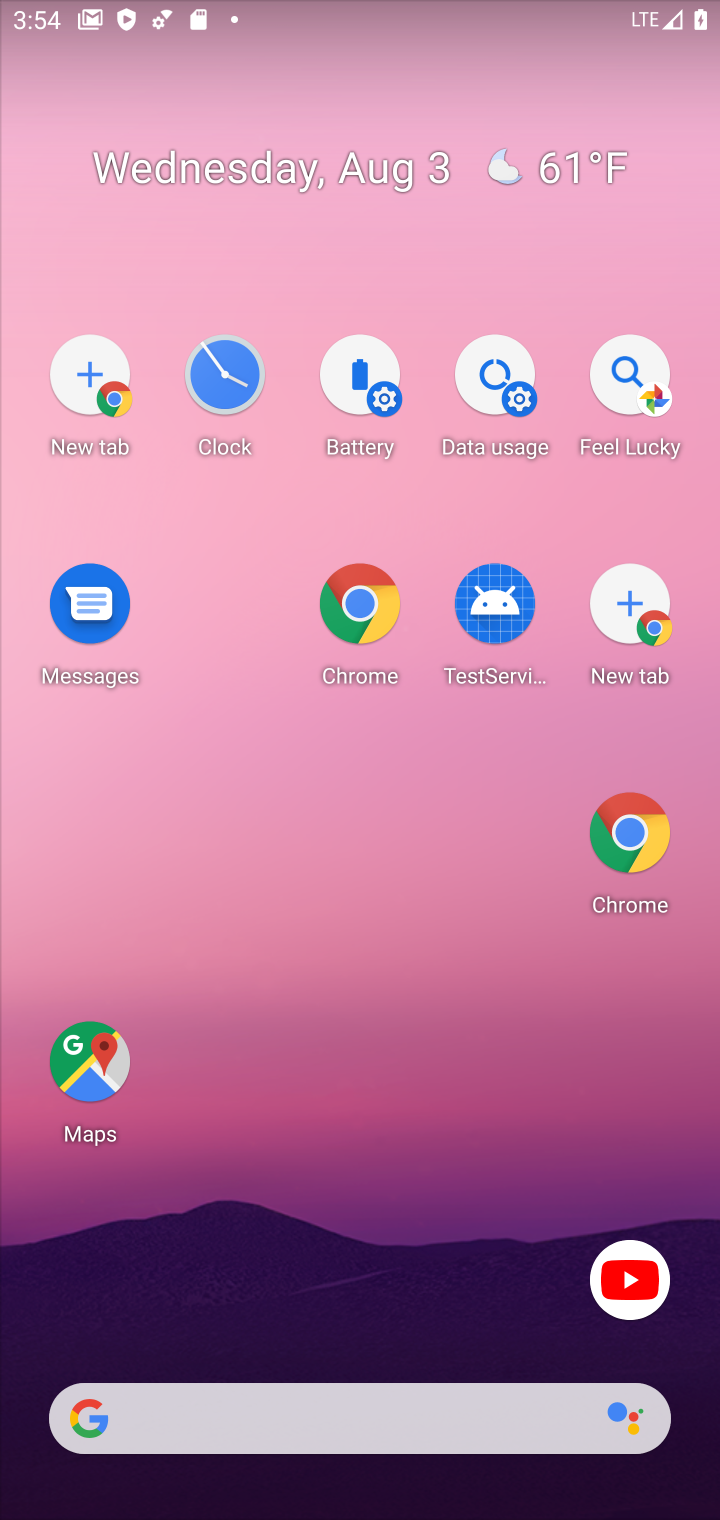
Step 31: drag from (395, 1103) to (290, 511)
Your task to perform on an android device: turn on the 24-hour format for clock Image 32: 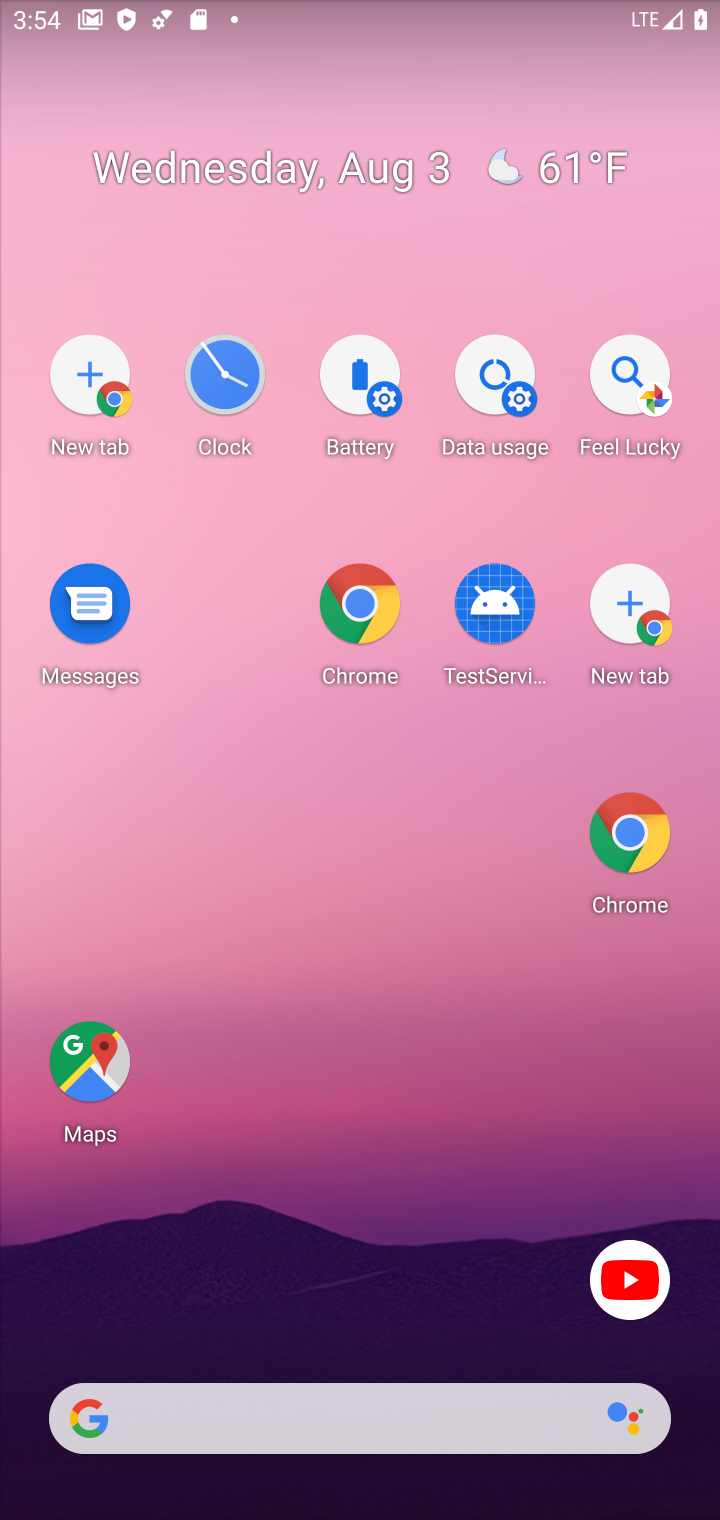
Step 32: drag from (481, 587) to (368, 258)
Your task to perform on an android device: turn on the 24-hour format for clock Image 33: 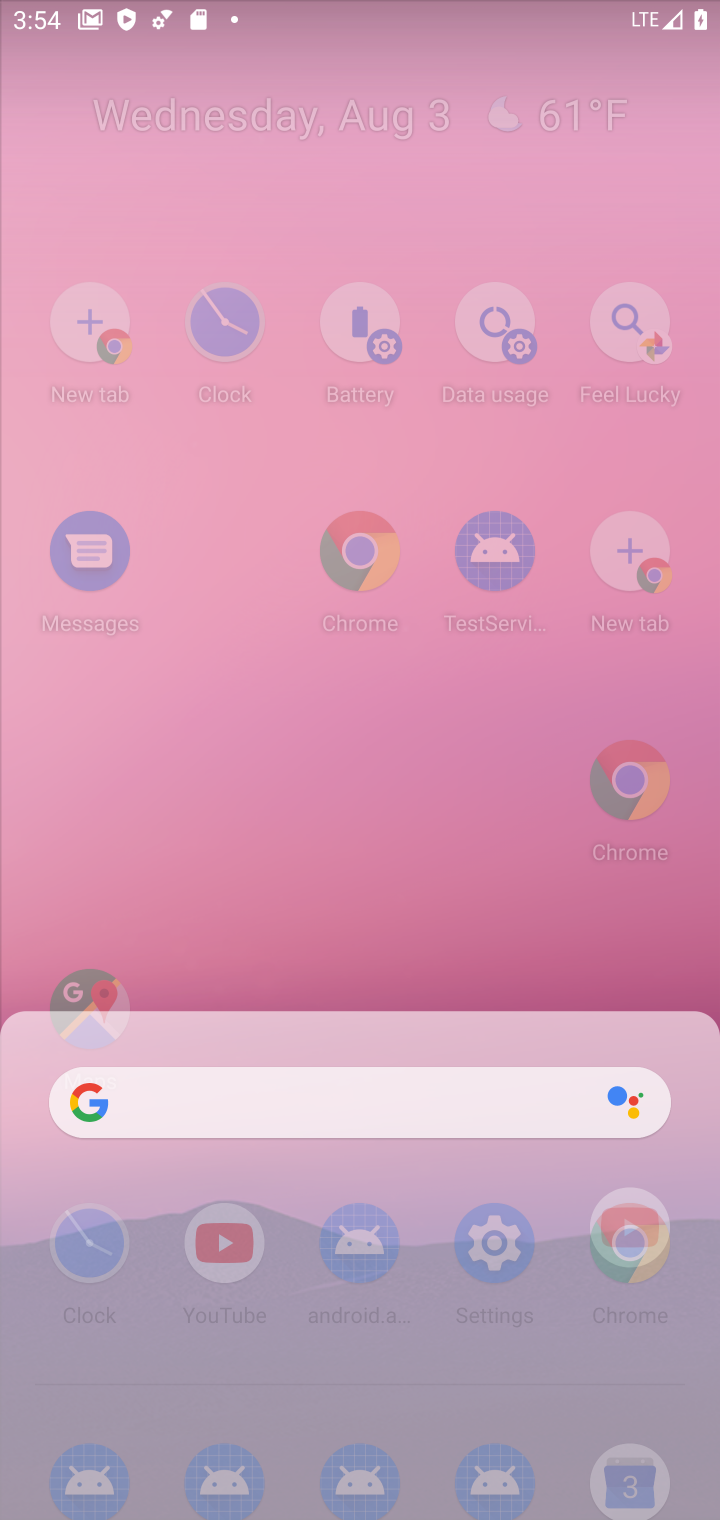
Step 33: click (221, 392)
Your task to perform on an android device: turn on the 24-hour format for clock Image 34: 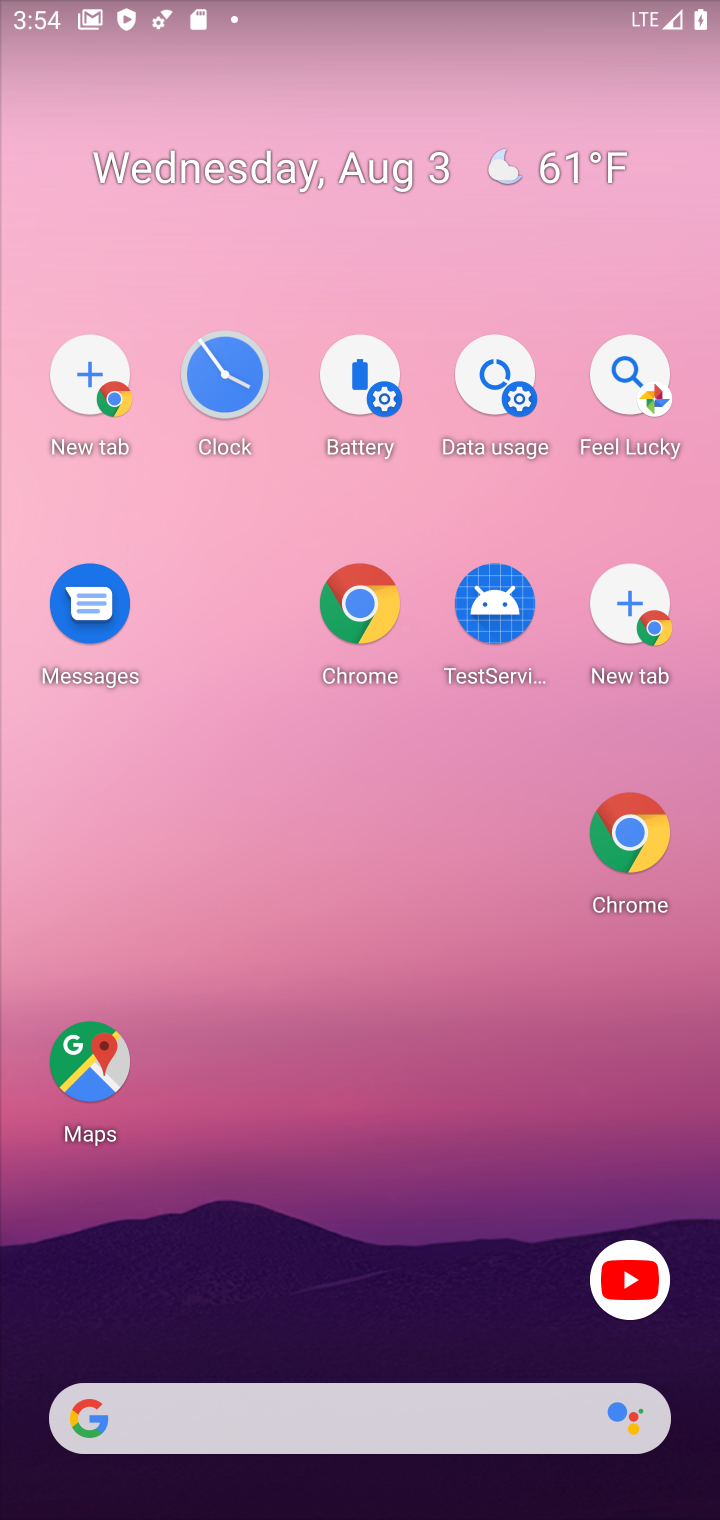
Step 34: click (223, 390)
Your task to perform on an android device: turn on the 24-hour format for clock Image 35: 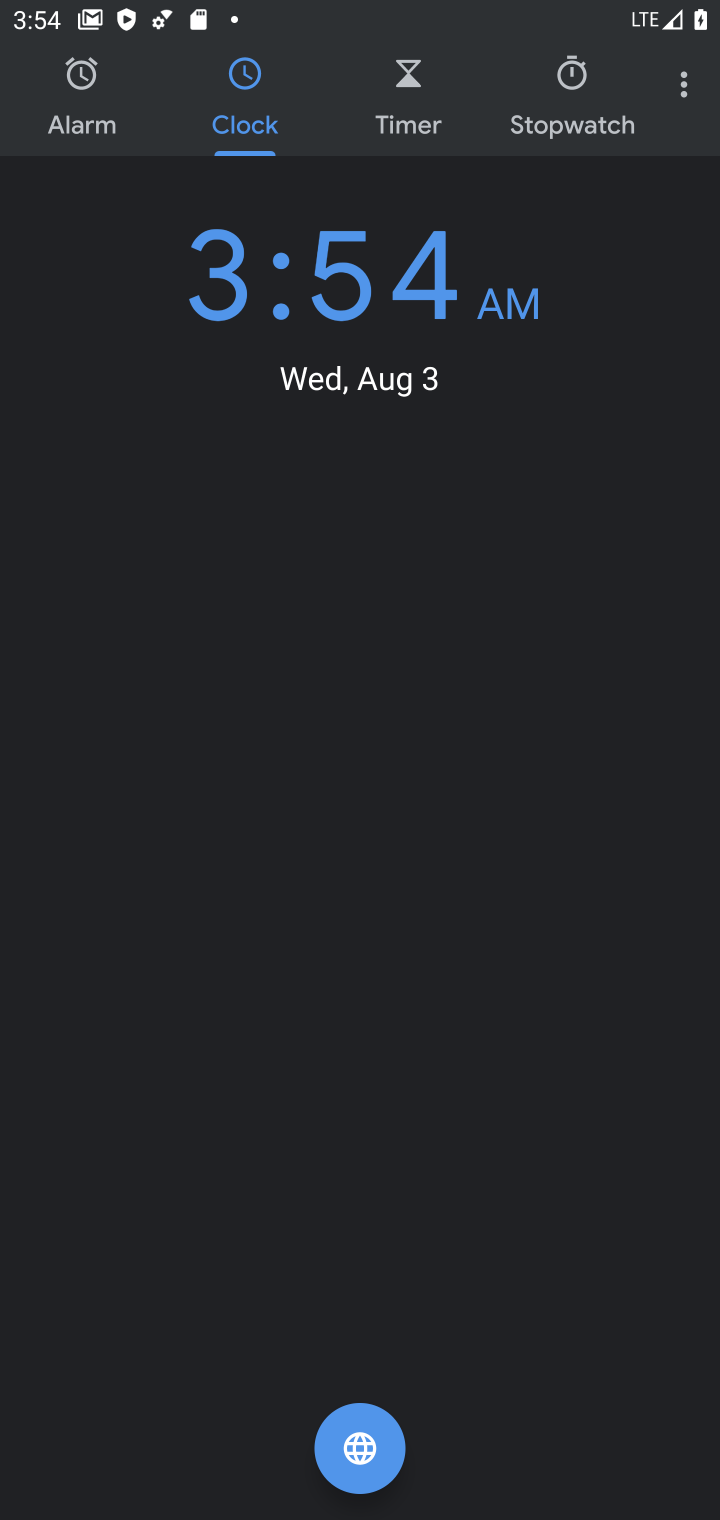
Step 35: drag from (685, 87) to (536, 180)
Your task to perform on an android device: turn on the 24-hour format for clock Image 36: 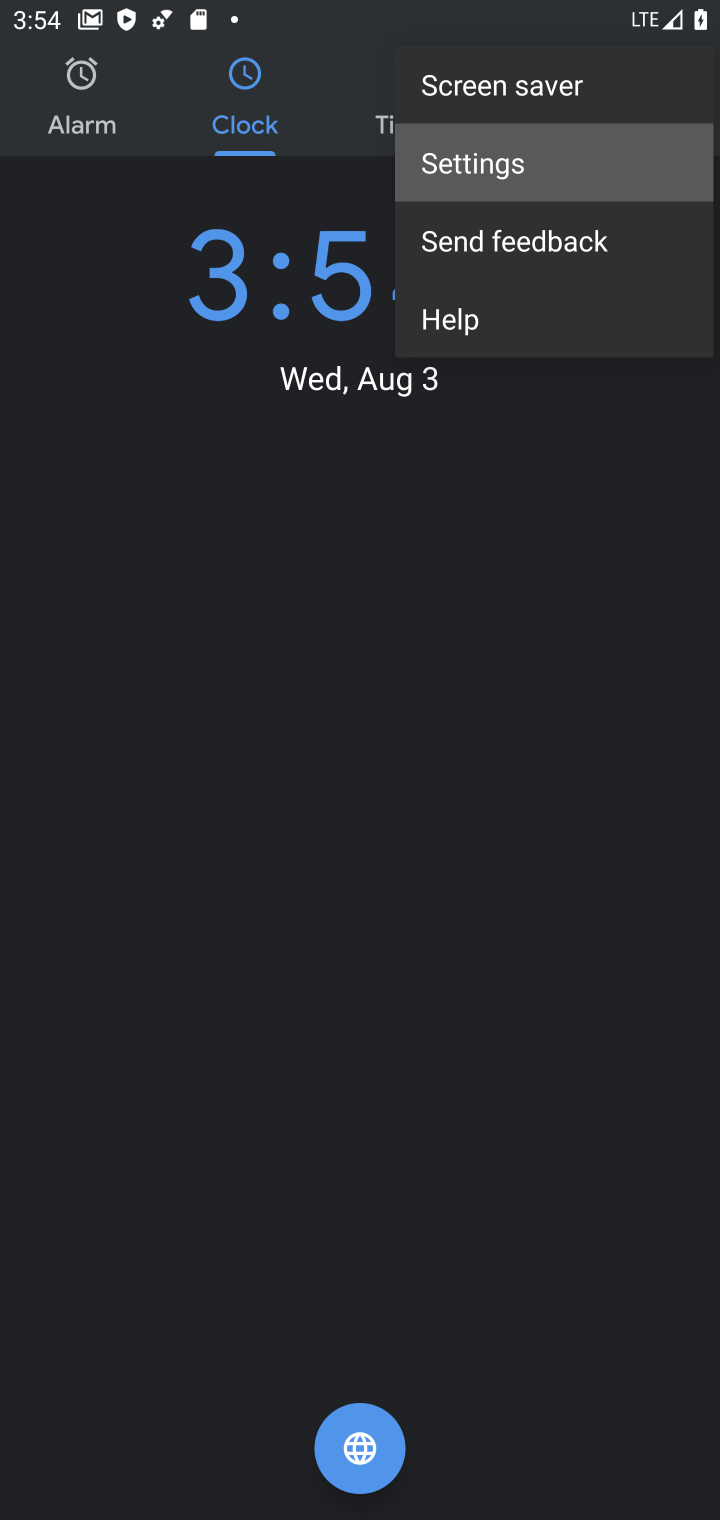
Step 36: click (534, 182)
Your task to perform on an android device: turn on the 24-hour format for clock Image 37: 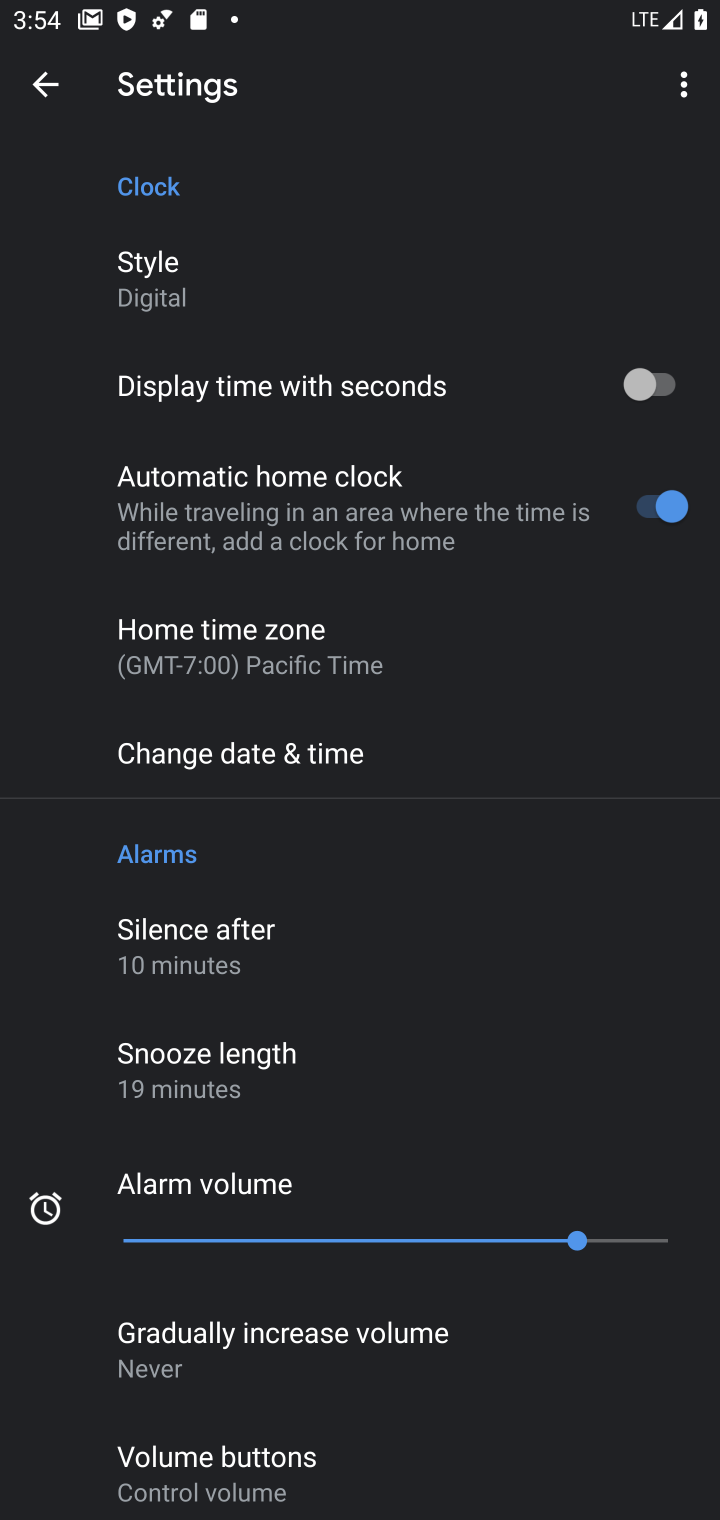
Step 37: click (241, 767)
Your task to perform on an android device: turn on the 24-hour format for clock Image 38: 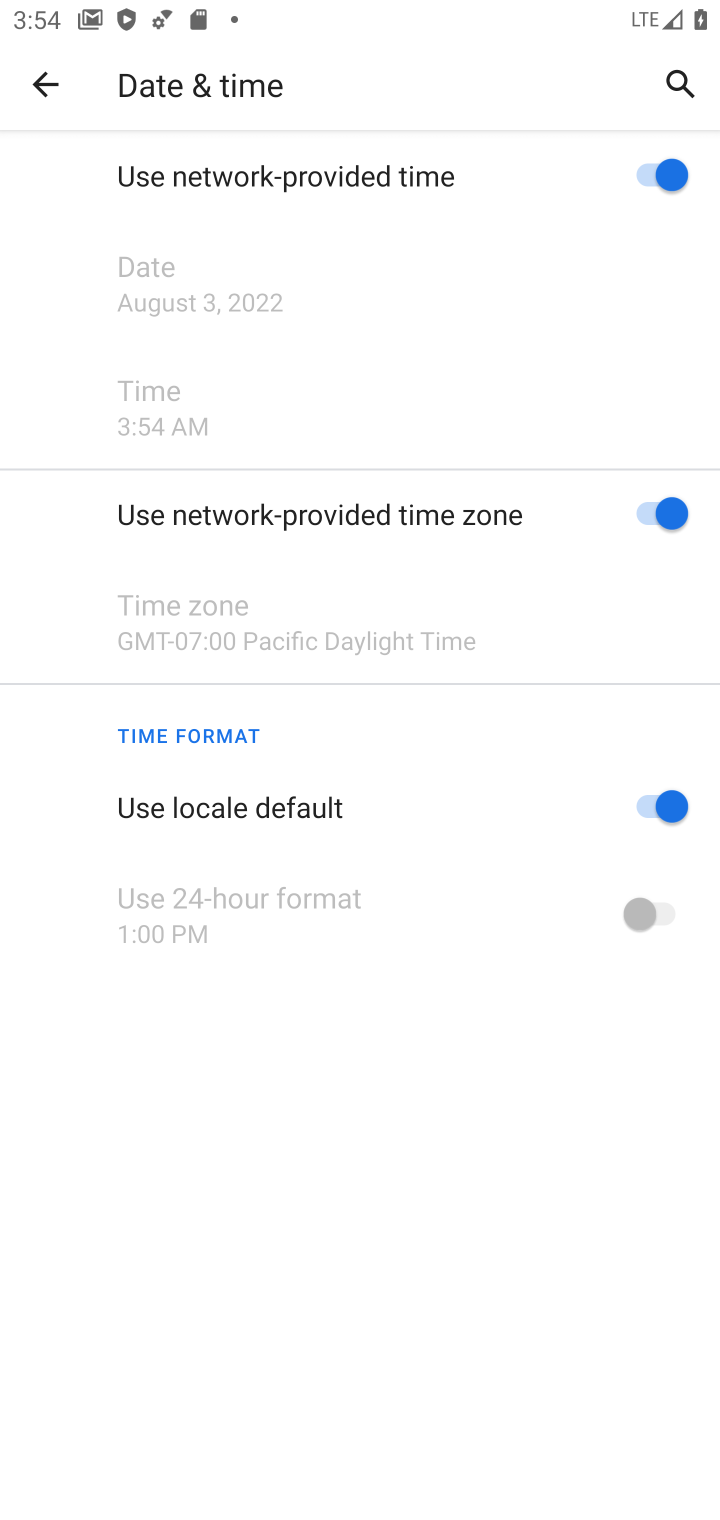
Step 38: click (670, 798)
Your task to perform on an android device: turn on the 24-hour format for clock Image 39: 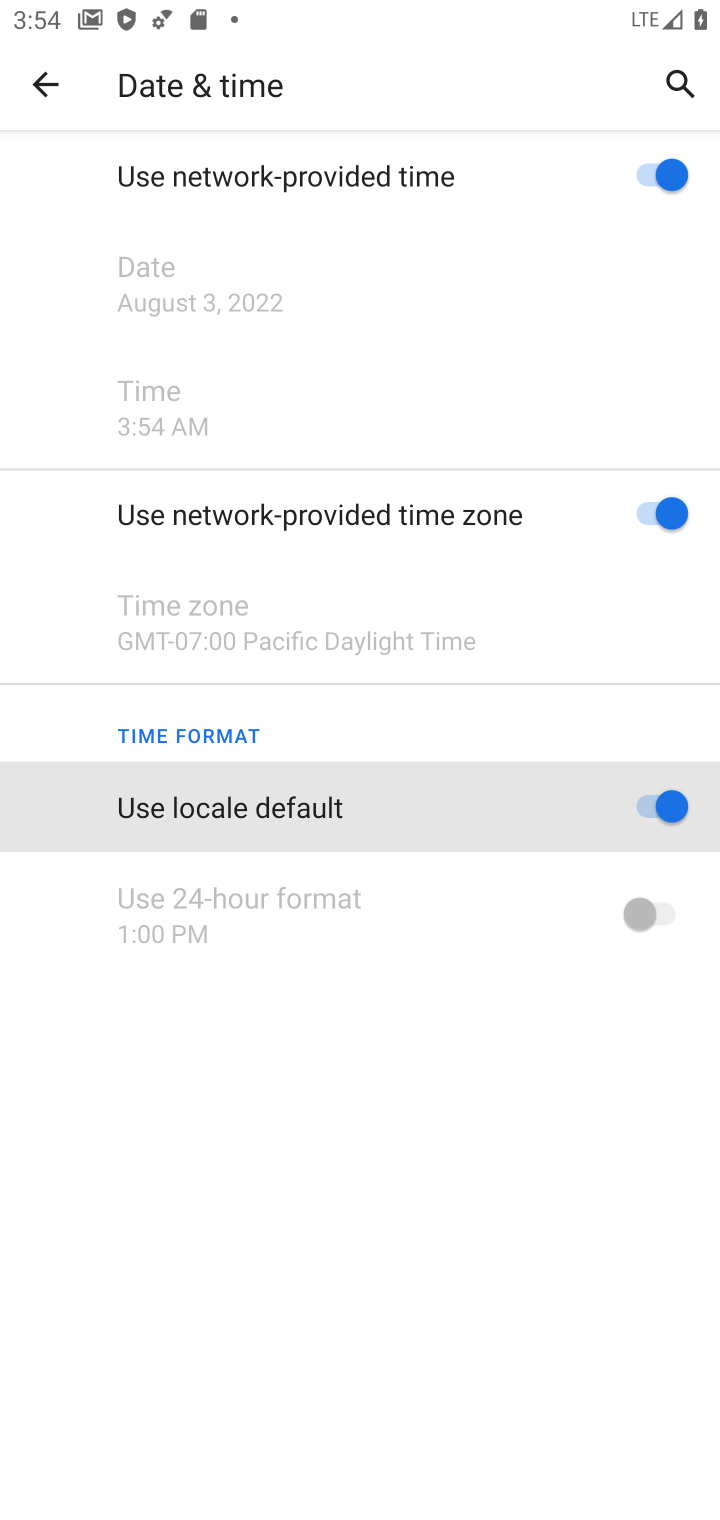
Step 39: click (642, 913)
Your task to perform on an android device: turn on the 24-hour format for clock Image 40: 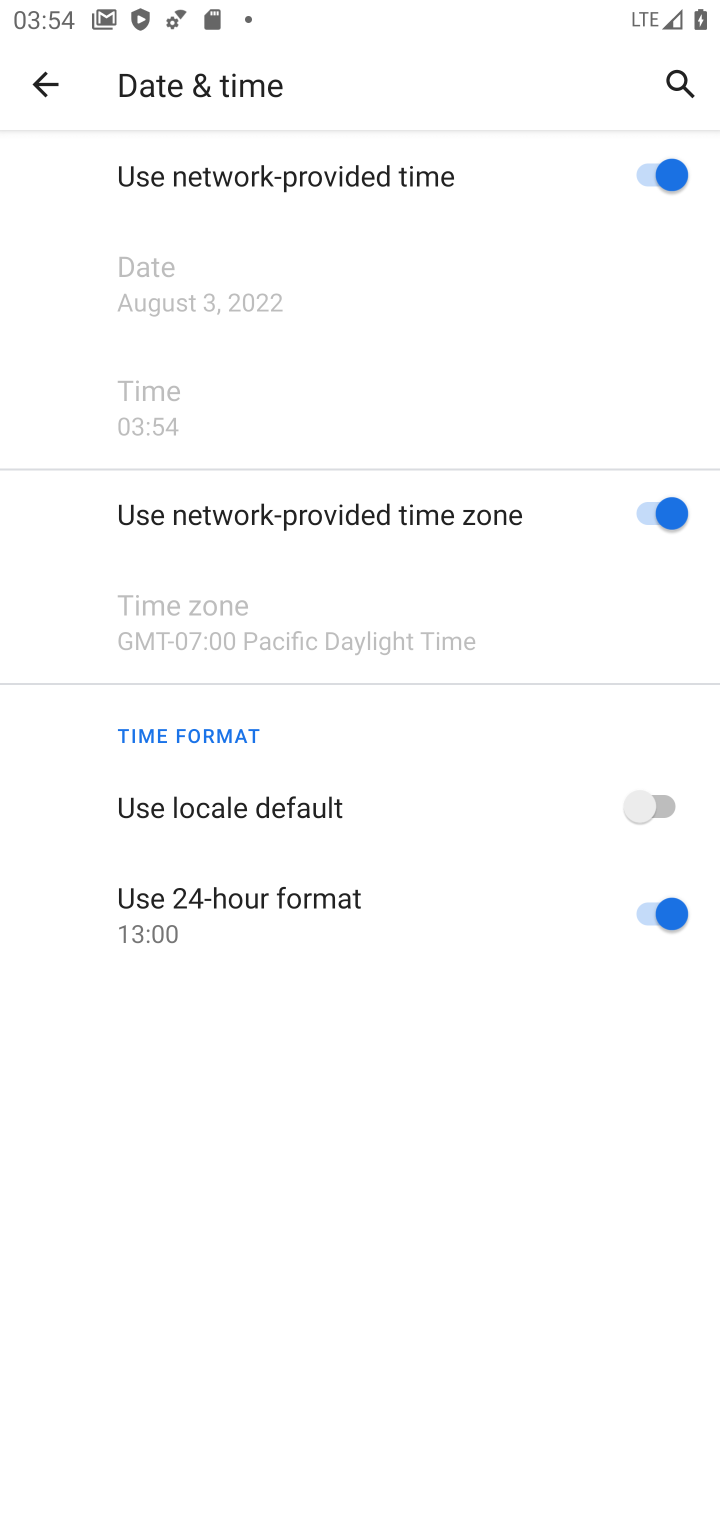
Step 40: task complete